Your task to perform on an android device: Search for flights from NYC to Chicago Image 0: 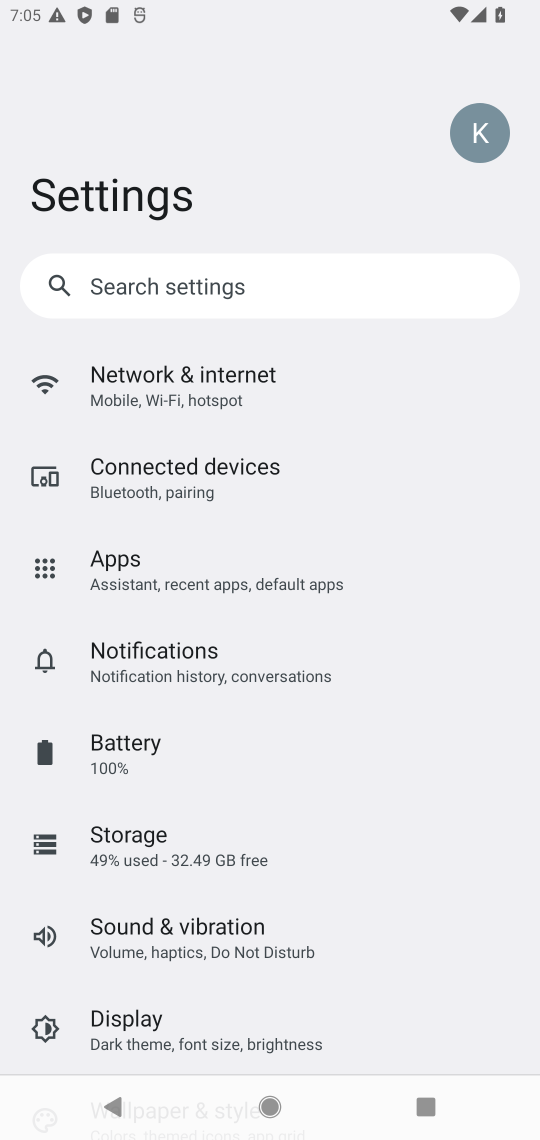
Step 0: press home button
Your task to perform on an android device: Search for flights from NYC to Chicago Image 1: 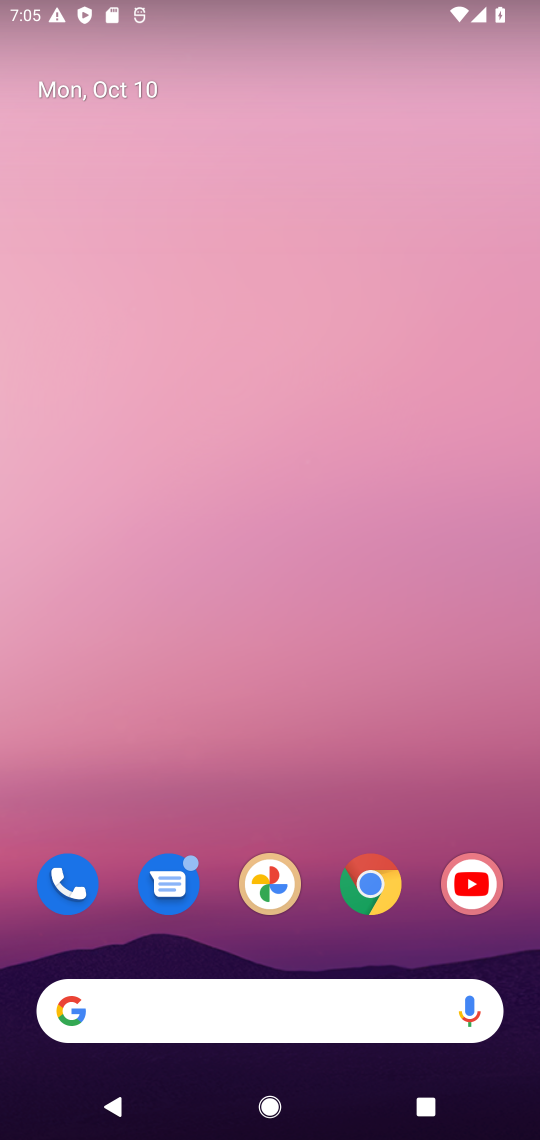
Step 1: click (188, 1001)
Your task to perform on an android device: Search for flights from NYC to Chicago Image 2: 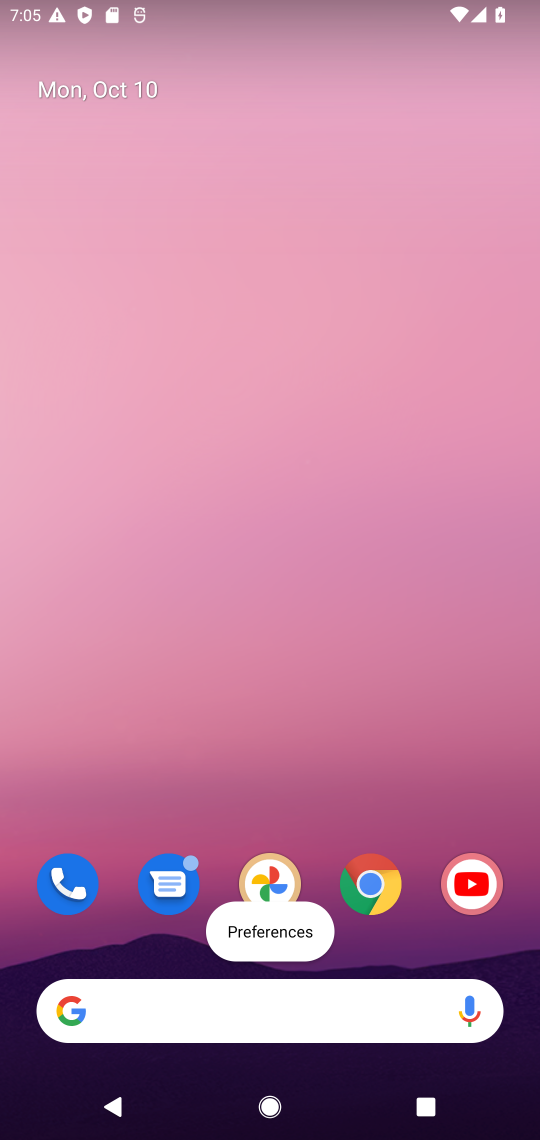
Step 2: click (357, 897)
Your task to perform on an android device: Search for flights from NYC to Chicago Image 3: 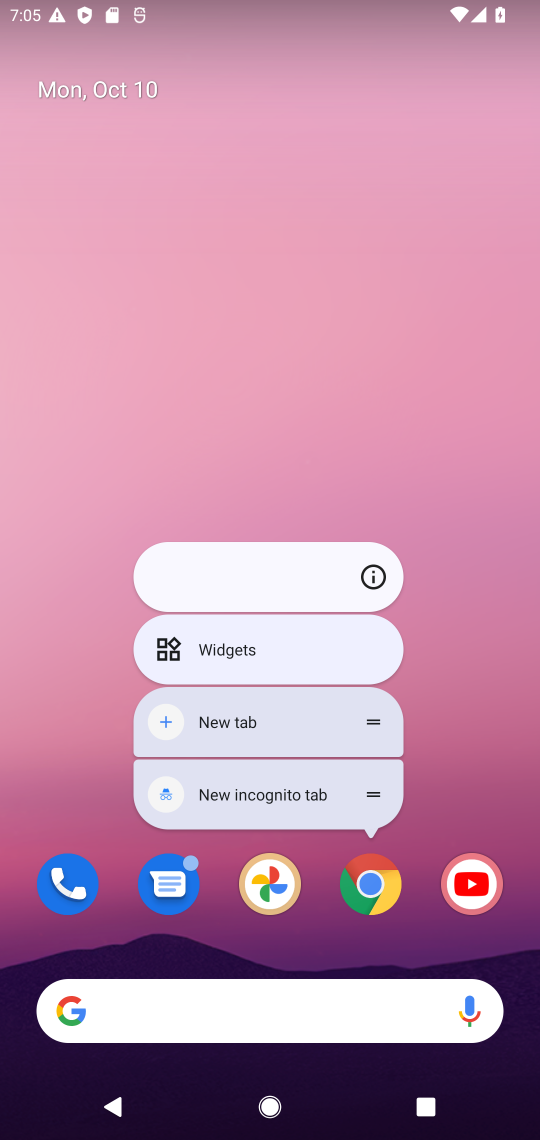
Step 3: click (390, 1021)
Your task to perform on an android device: Search for flights from NYC to Chicago Image 4: 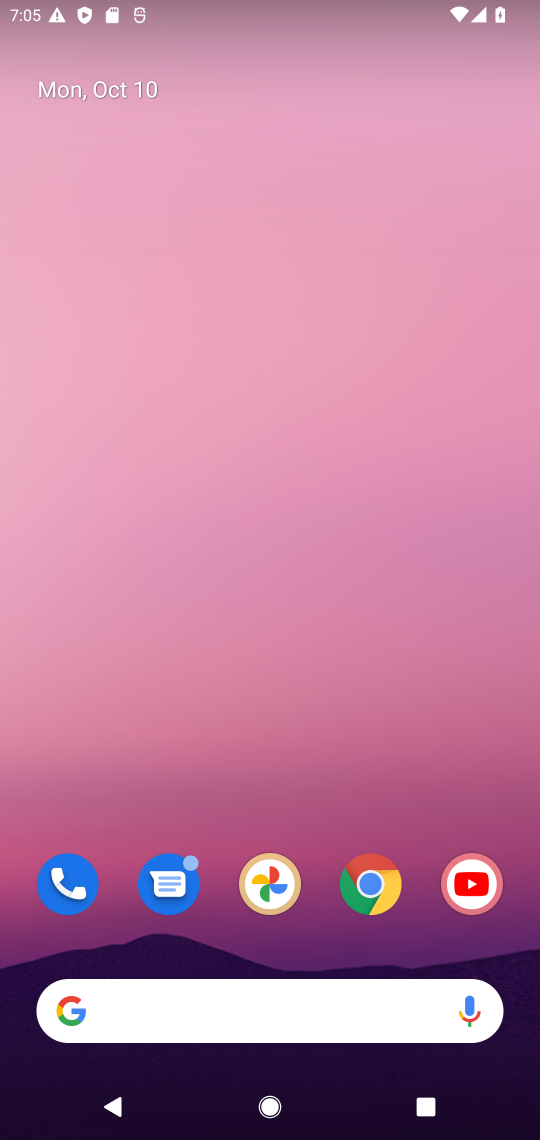
Step 4: click (372, 1005)
Your task to perform on an android device: Search for flights from NYC to Chicago Image 5: 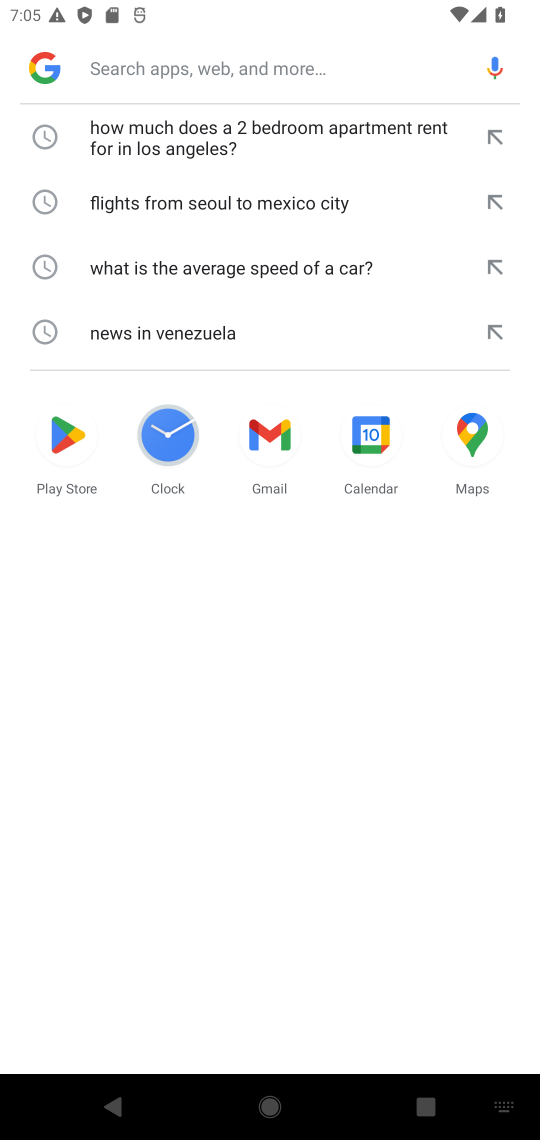
Step 5: type " flights from NYC to Chicago"
Your task to perform on an android device: Search for flights from NYC to Chicago Image 6: 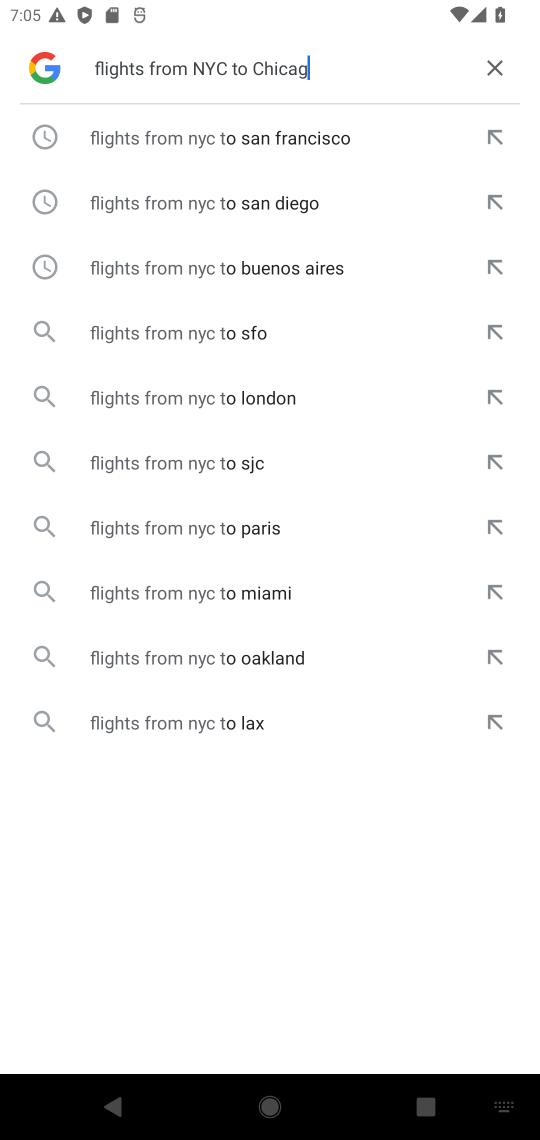
Step 6: type ""
Your task to perform on an android device: Search for flights from NYC to Chicago Image 7: 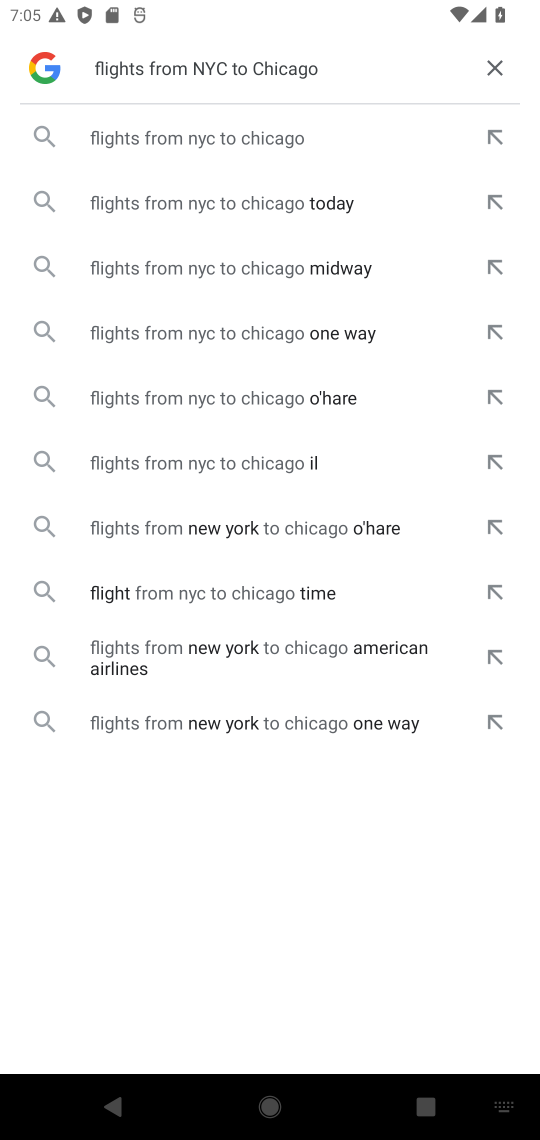
Step 7: press enter
Your task to perform on an android device: Search for flights from NYC to Chicago Image 8: 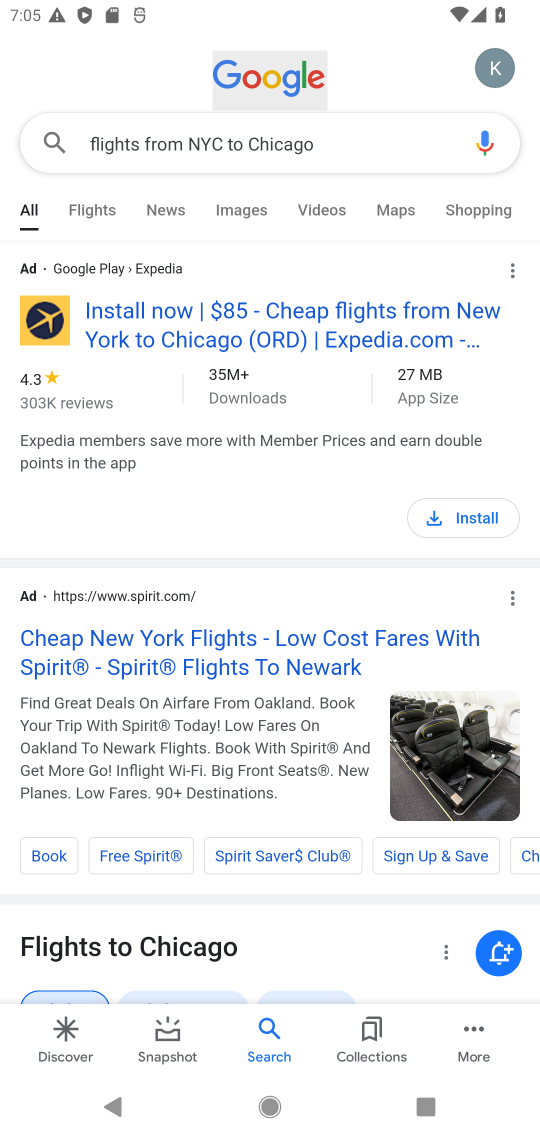
Step 8: drag from (148, 825) to (148, 312)
Your task to perform on an android device: Search for flights from NYC to Chicago Image 9: 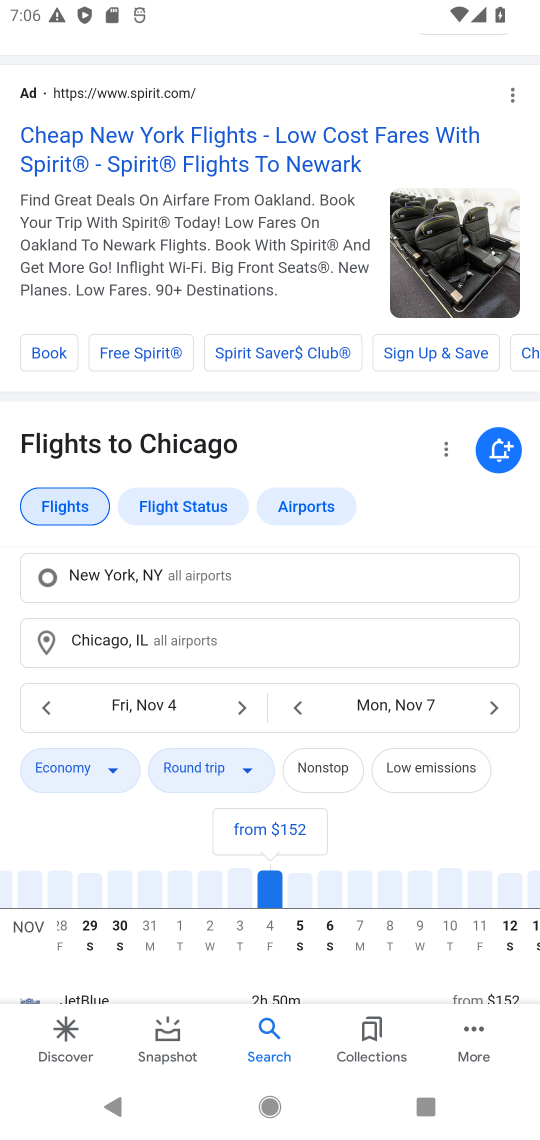
Step 9: click (179, 441)
Your task to perform on an android device: Search for flights from NYC to Chicago Image 10: 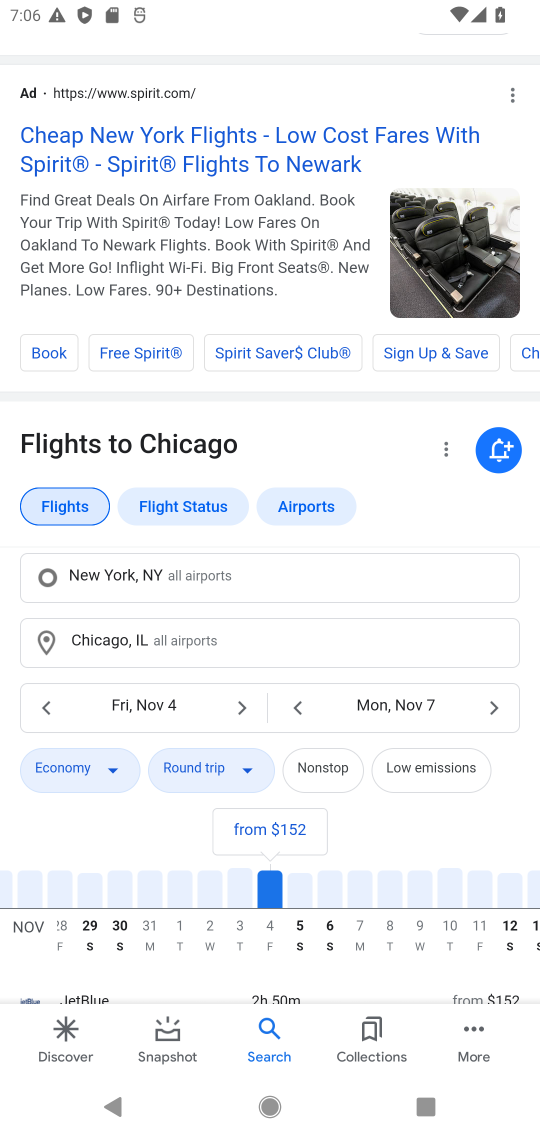
Step 10: click (338, 374)
Your task to perform on an android device: Search for flights from NYC to Chicago Image 11: 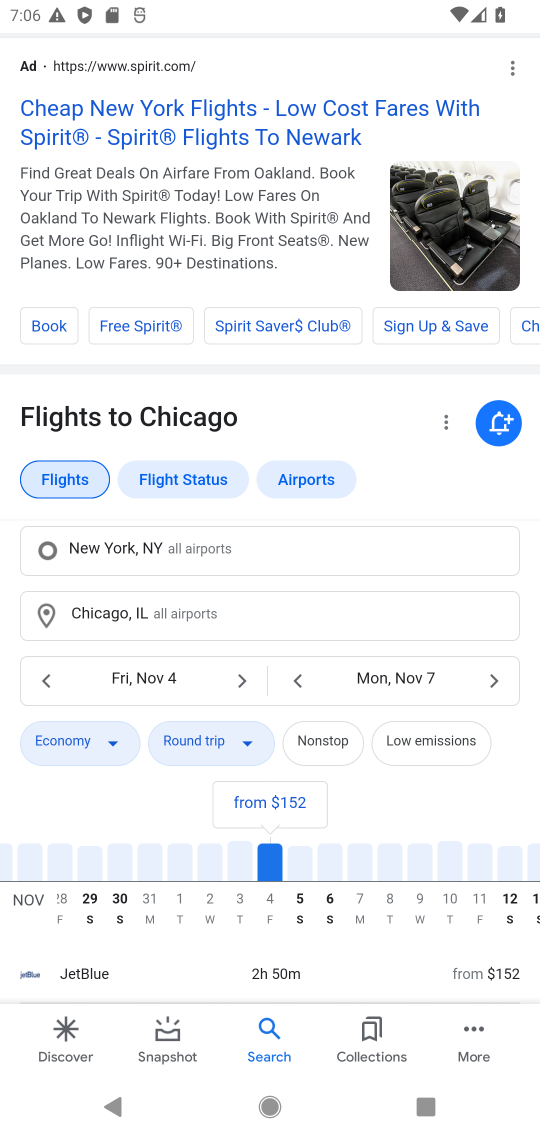
Step 11: drag from (401, 833) to (384, 313)
Your task to perform on an android device: Search for flights from NYC to Chicago Image 12: 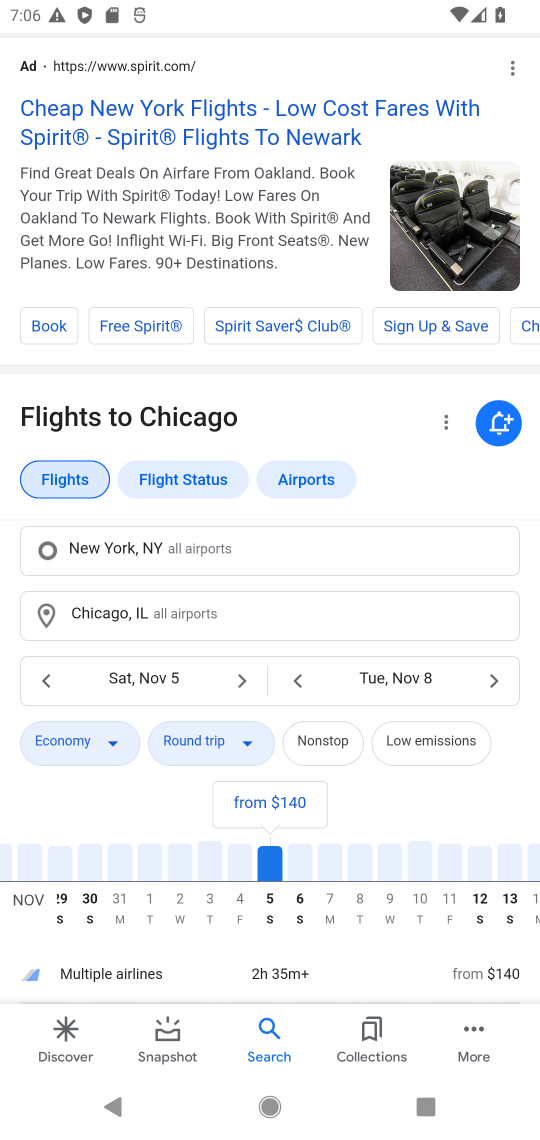
Step 12: drag from (430, 930) to (411, 313)
Your task to perform on an android device: Search for flights from NYC to Chicago Image 13: 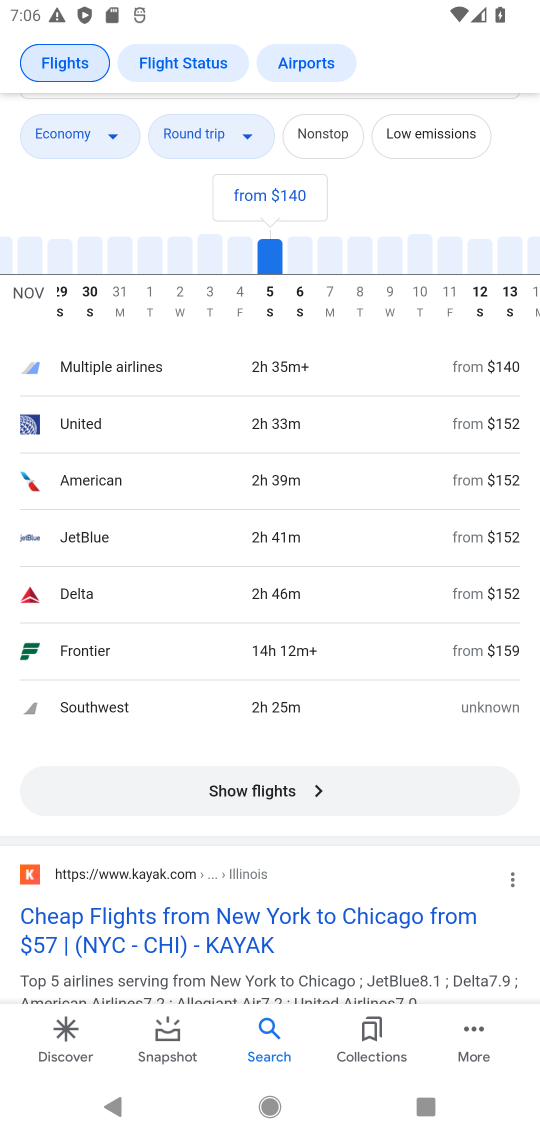
Step 13: drag from (395, 814) to (402, 593)
Your task to perform on an android device: Search for flights from NYC to Chicago Image 14: 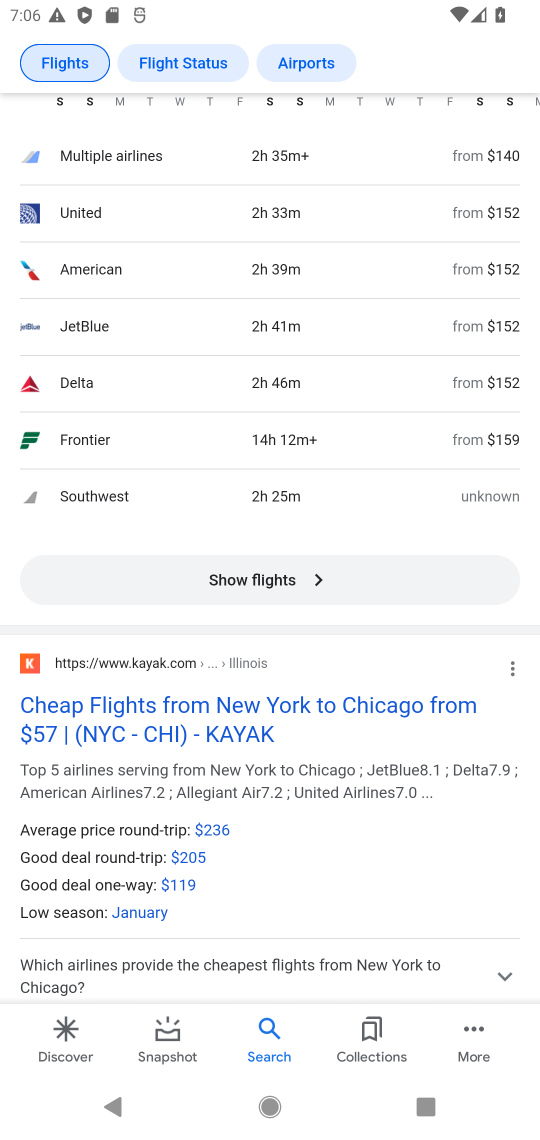
Step 14: click (281, 589)
Your task to perform on an android device: Search for flights from NYC to Chicago Image 15: 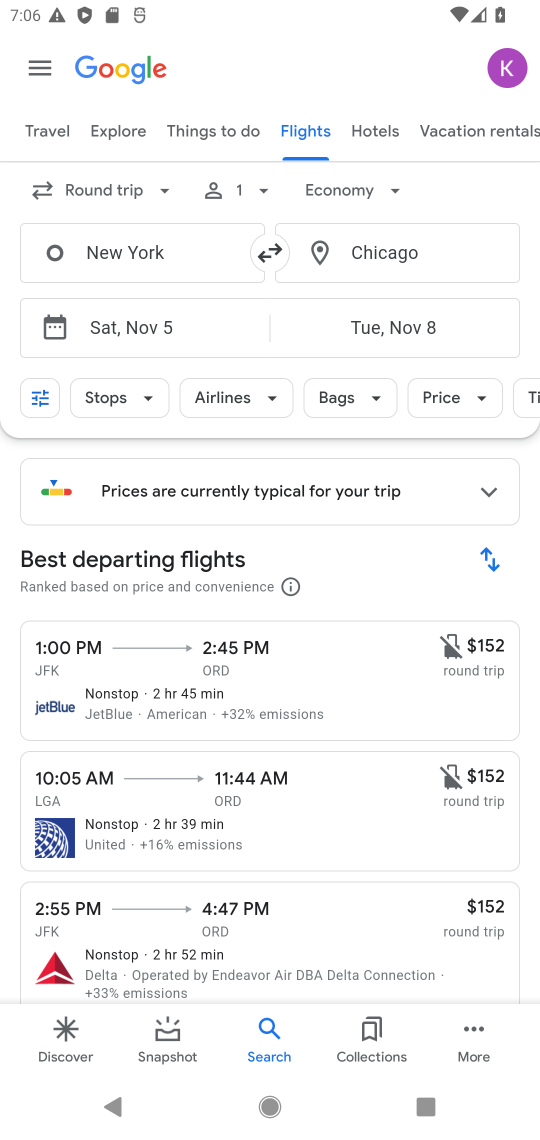
Step 15: drag from (293, 865) to (258, 340)
Your task to perform on an android device: Search for flights from NYC to Chicago Image 16: 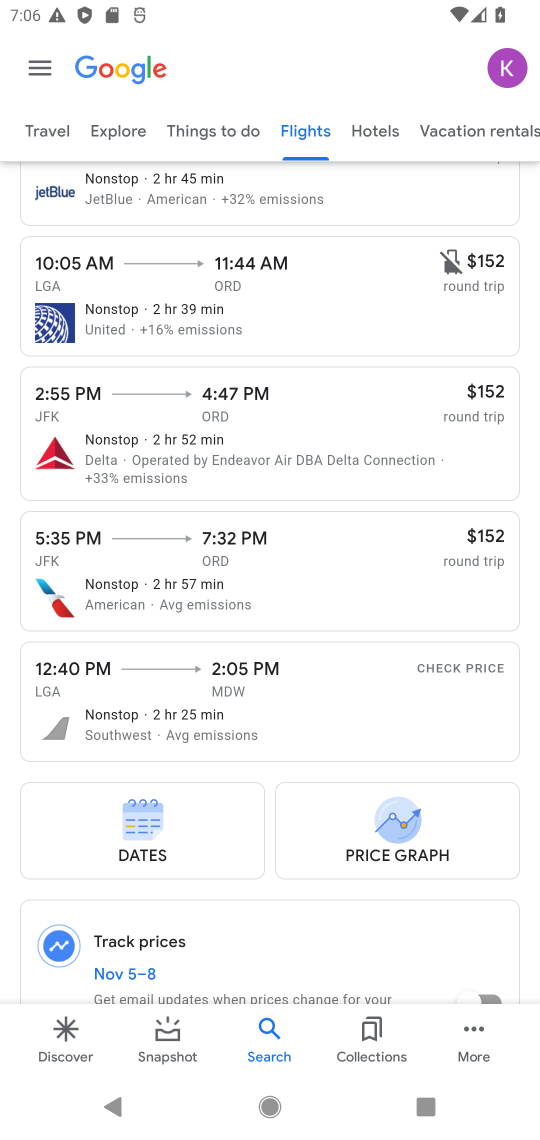
Step 16: drag from (314, 823) to (301, 363)
Your task to perform on an android device: Search for flights from NYC to Chicago Image 17: 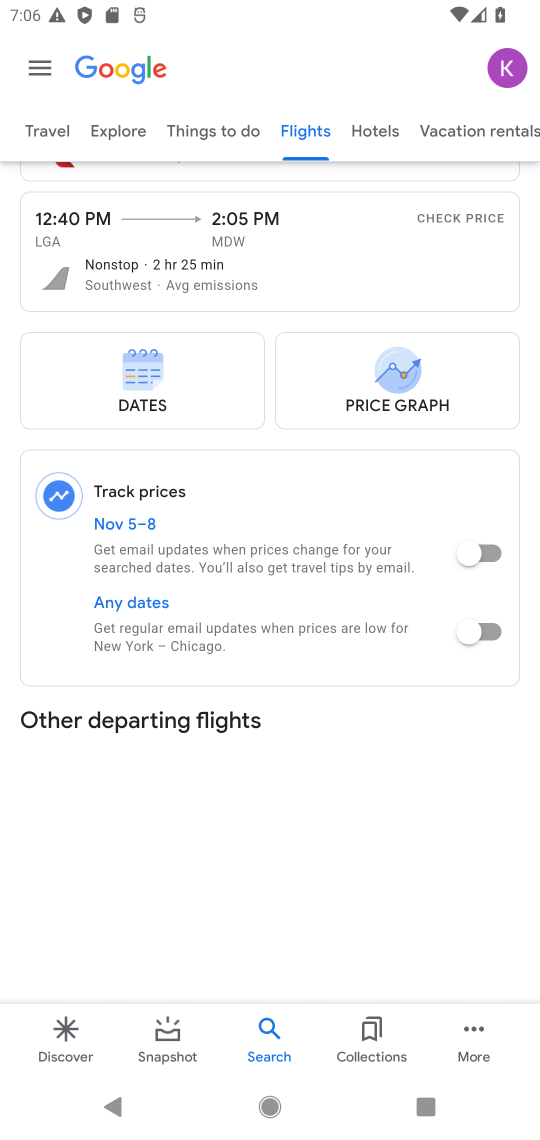
Step 17: drag from (286, 803) to (307, 355)
Your task to perform on an android device: Search for flights from NYC to Chicago Image 18: 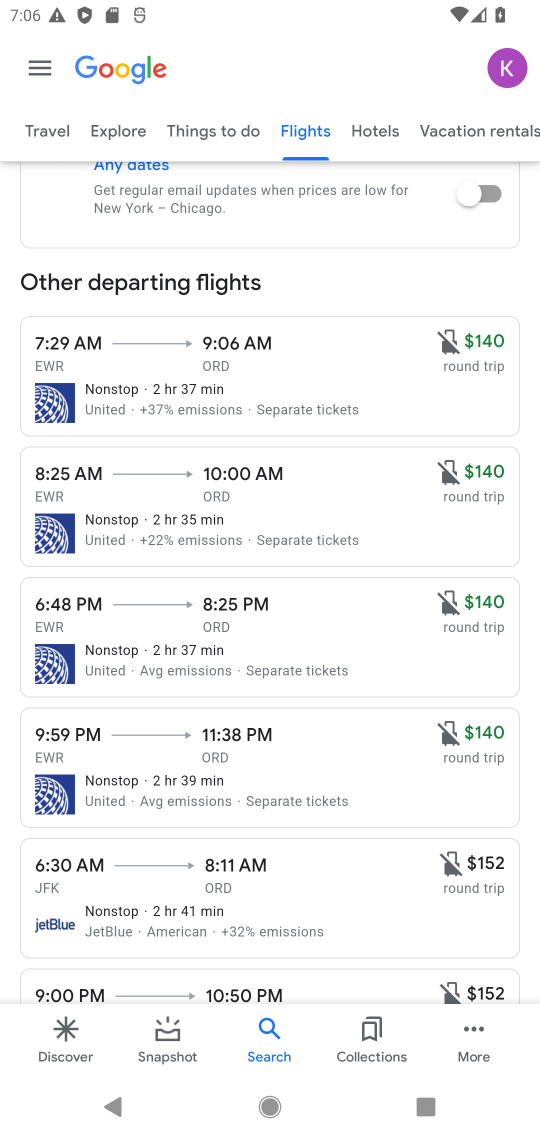
Step 18: drag from (354, 522) to (394, 336)
Your task to perform on an android device: Search for flights from NYC to Chicago Image 19: 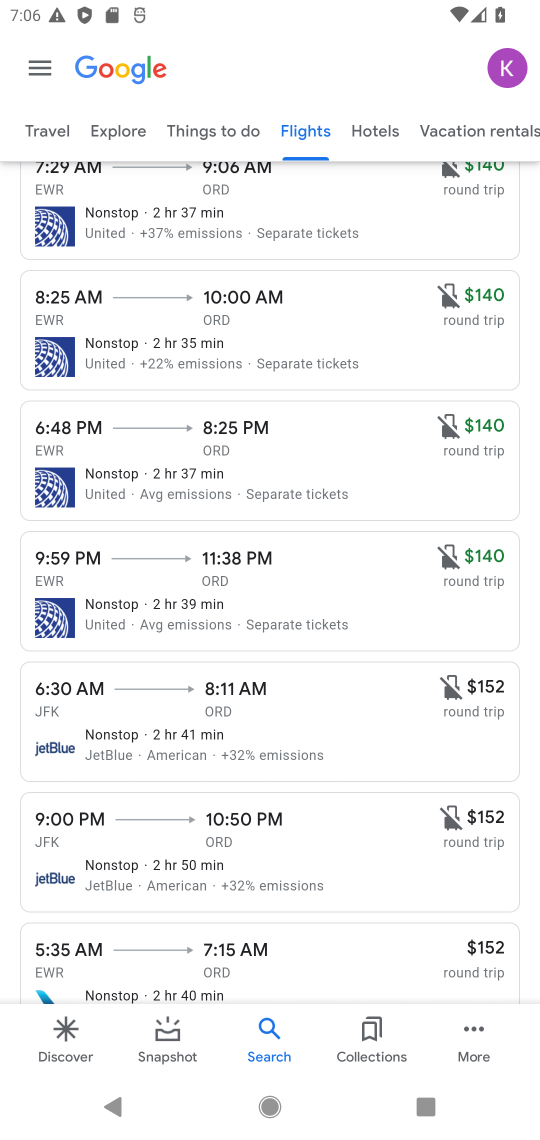
Step 19: drag from (326, 737) to (388, 327)
Your task to perform on an android device: Search for flights from NYC to Chicago Image 20: 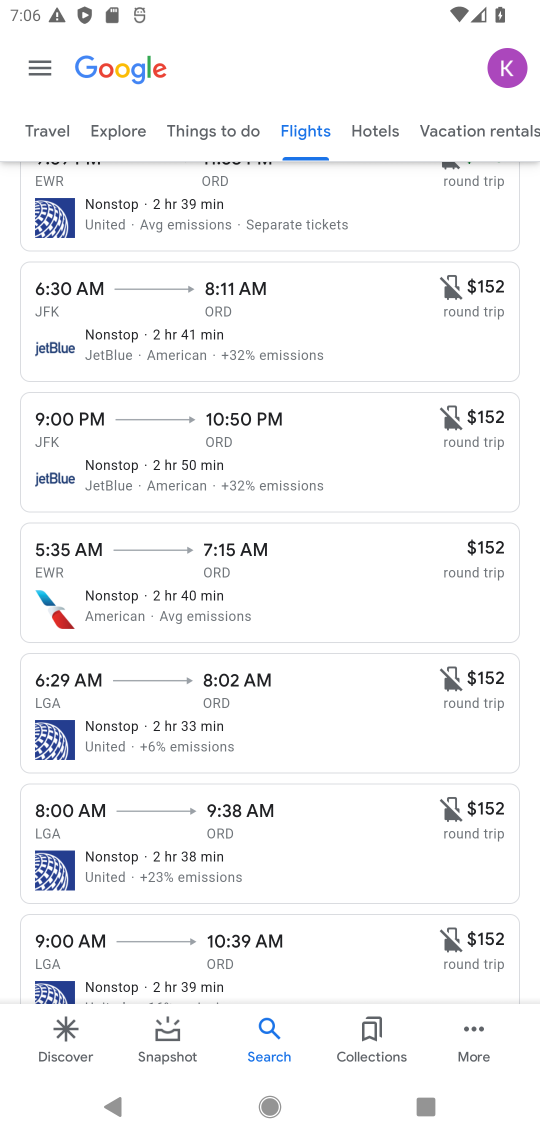
Step 20: drag from (349, 852) to (379, 293)
Your task to perform on an android device: Search for flights from NYC to Chicago Image 21: 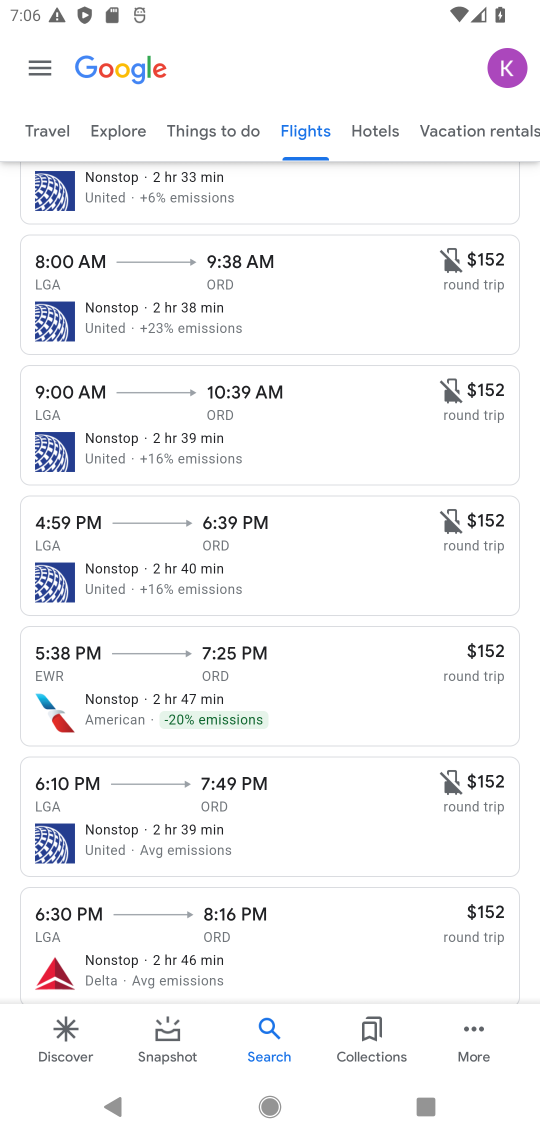
Step 21: drag from (199, 501) to (222, 298)
Your task to perform on an android device: Search for flights from NYC to Chicago Image 22: 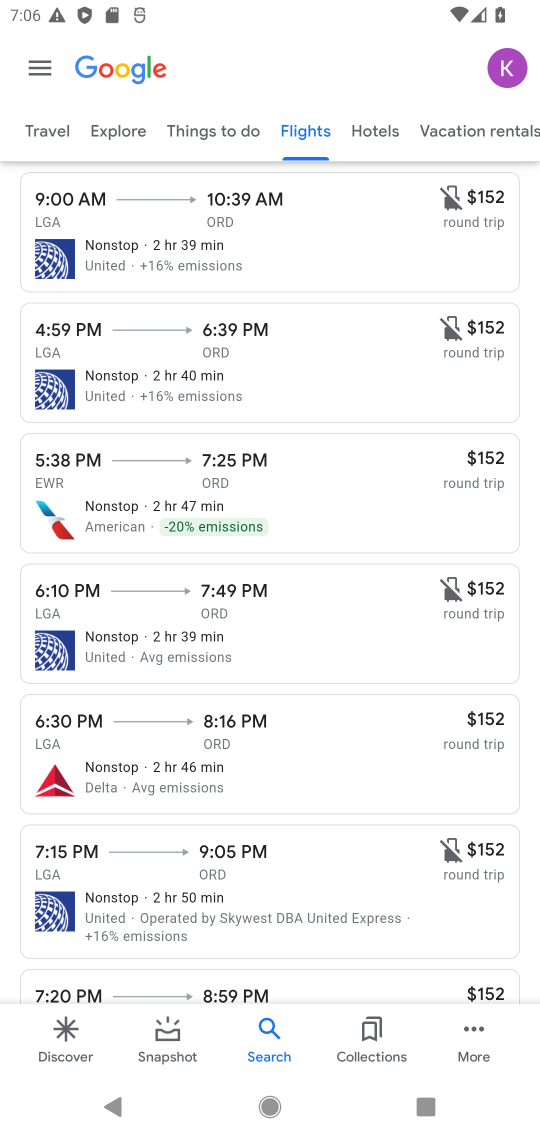
Step 22: drag from (241, 724) to (230, 433)
Your task to perform on an android device: Search for flights from NYC to Chicago Image 23: 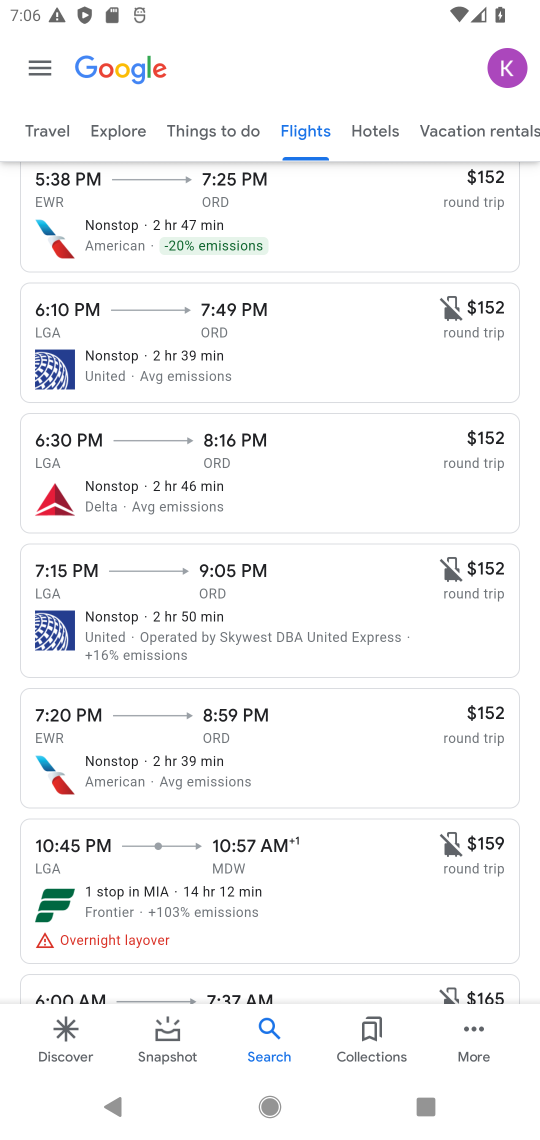
Step 23: drag from (295, 641) to (306, 345)
Your task to perform on an android device: Search for flights from NYC to Chicago Image 24: 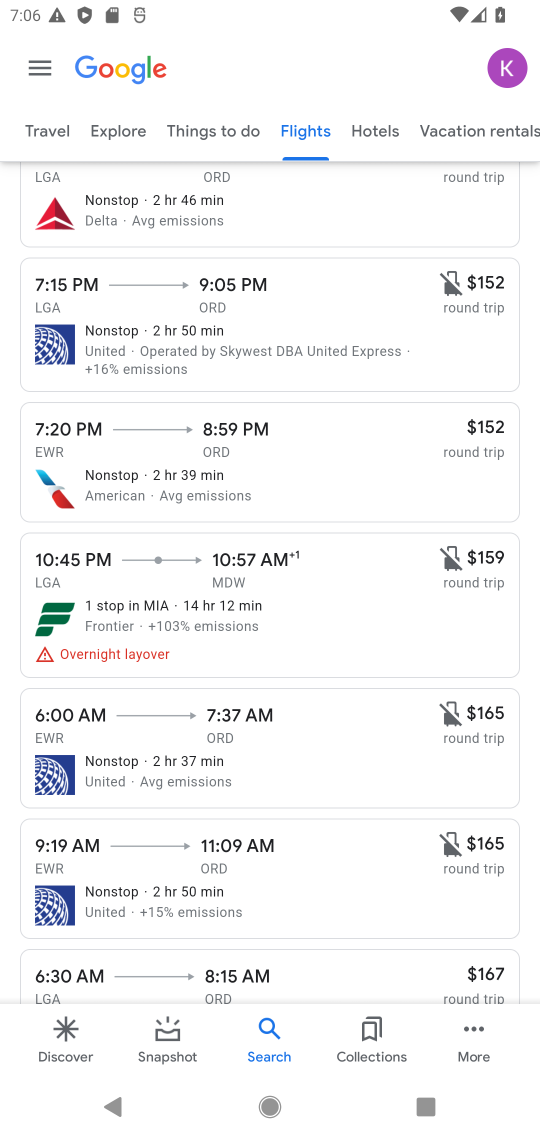
Step 24: drag from (395, 775) to (356, 385)
Your task to perform on an android device: Search for flights from NYC to Chicago Image 25: 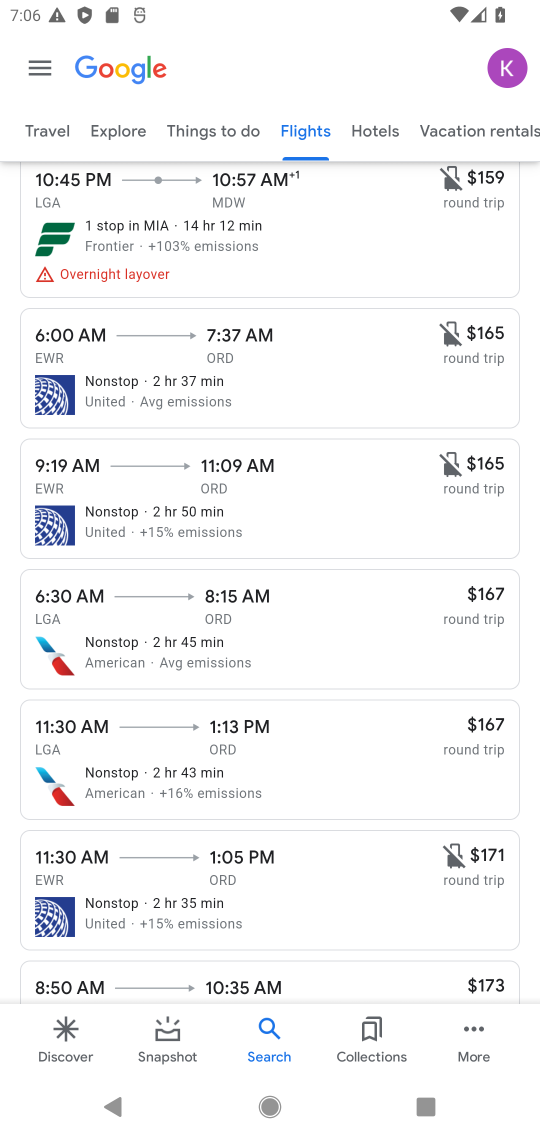
Step 25: drag from (285, 623) to (287, 279)
Your task to perform on an android device: Search for flights from NYC to Chicago Image 26: 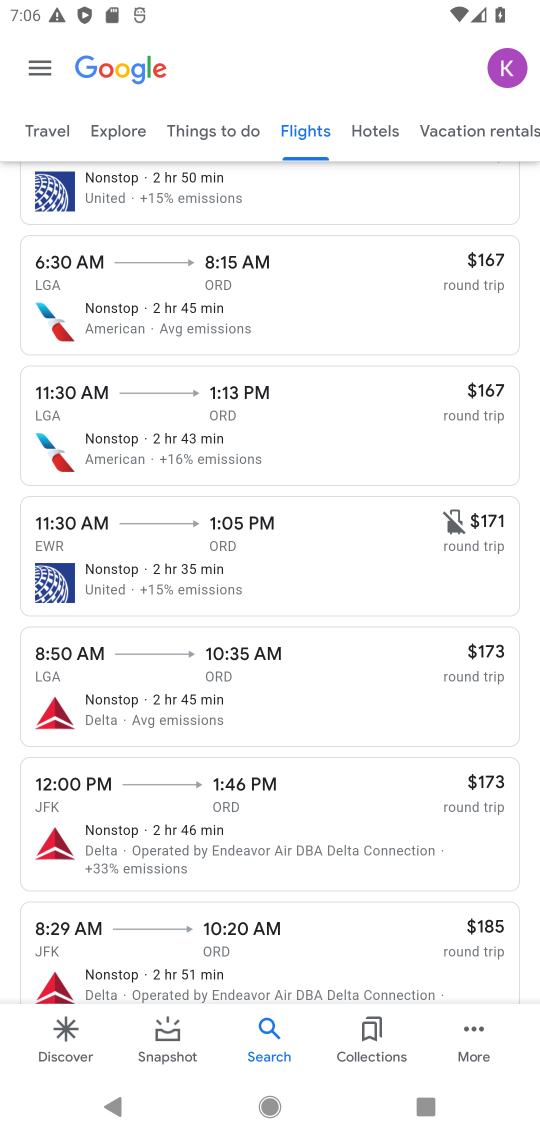
Step 26: drag from (299, 644) to (317, 307)
Your task to perform on an android device: Search for flights from NYC to Chicago Image 27: 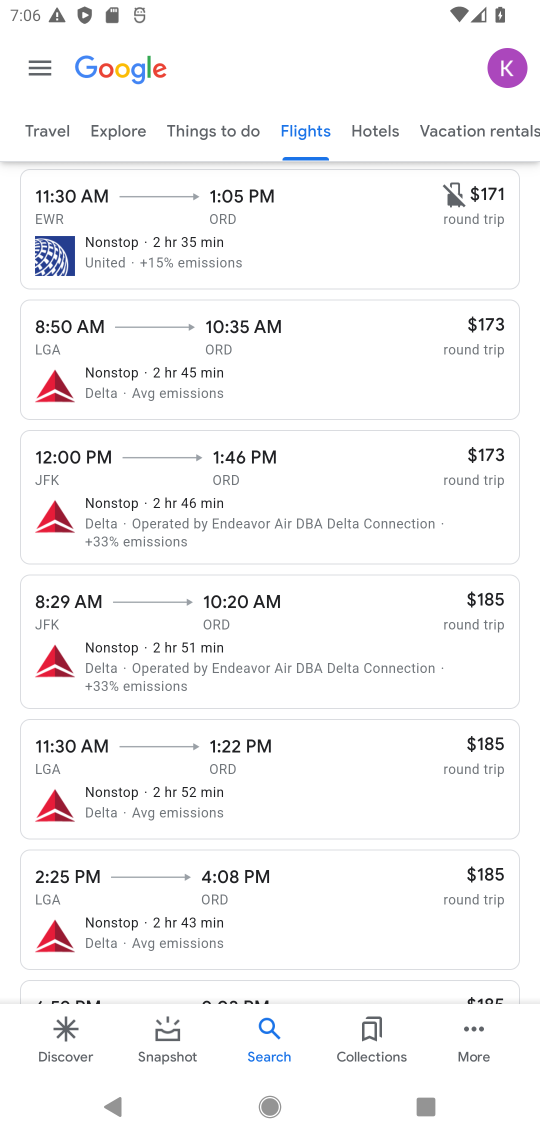
Step 27: drag from (351, 531) to (357, 353)
Your task to perform on an android device: Search for flights from NYC to Chicago Image 28: 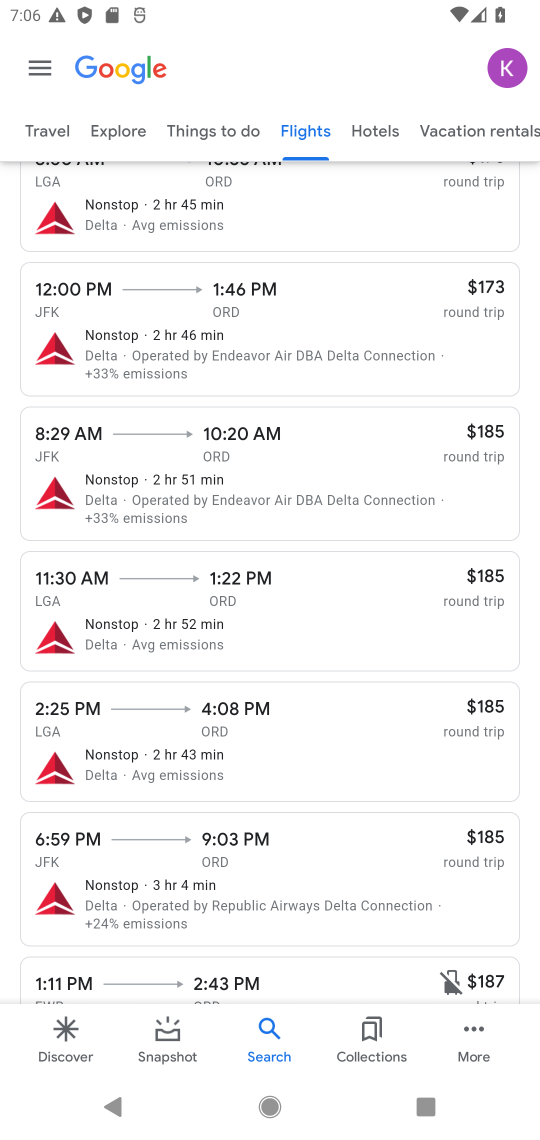
Step 28: drag from (382, 836) to (342, 337)
Your task to perform on an android device: Search for flights from NYC to Chicago Image 29: 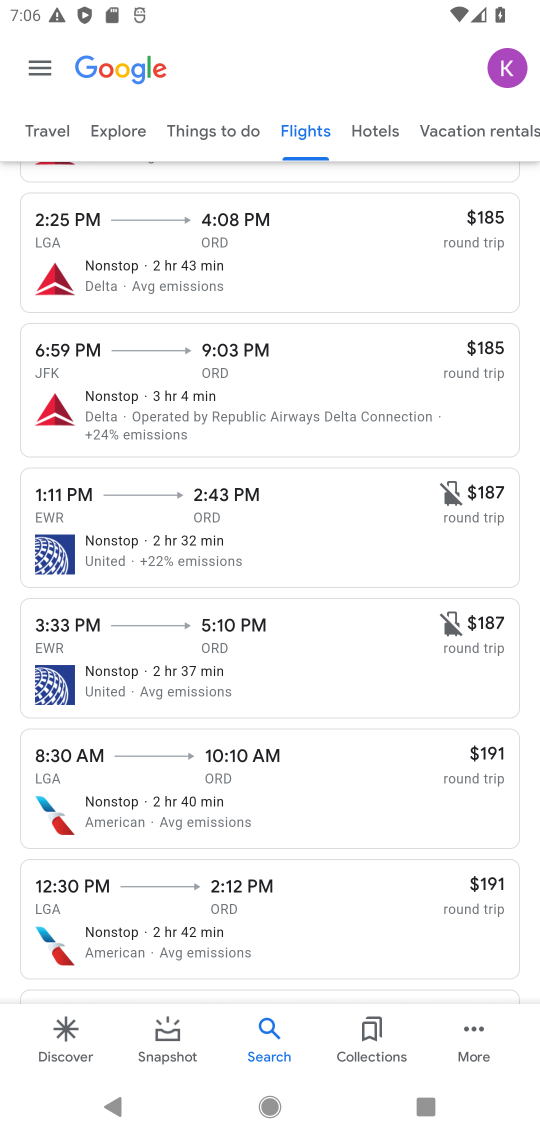
Step 29: drag from (363, 731) to (361, 363)
Your task to perform on an android device: Search for flights from NYC to Chicago Image 30: 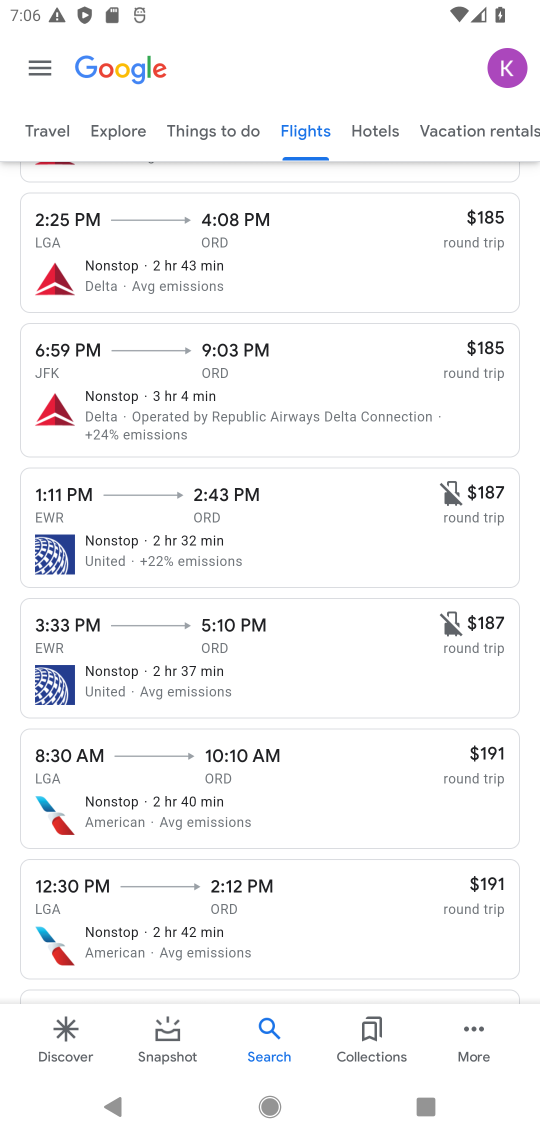
Step 30: drag from (396, 821) to (375, 418)
Your task to perform on an android device: Search for flights from NYC to Chicago Image 31: 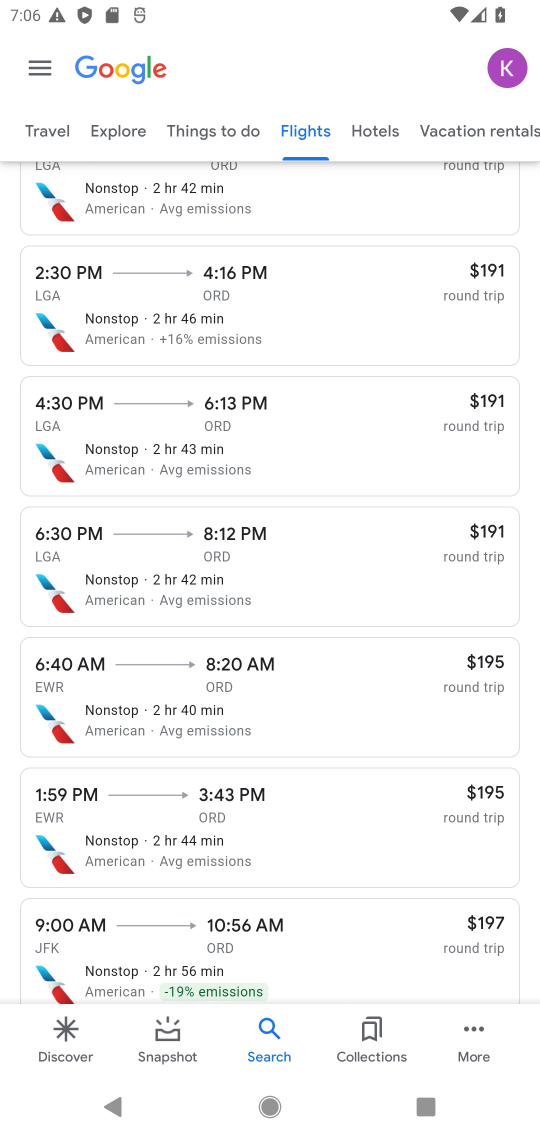
Step 31: drag from (437, 749) to (458, 434)
Your task to perform on an android device: Search for flights from NYC to Chicago Image 32: 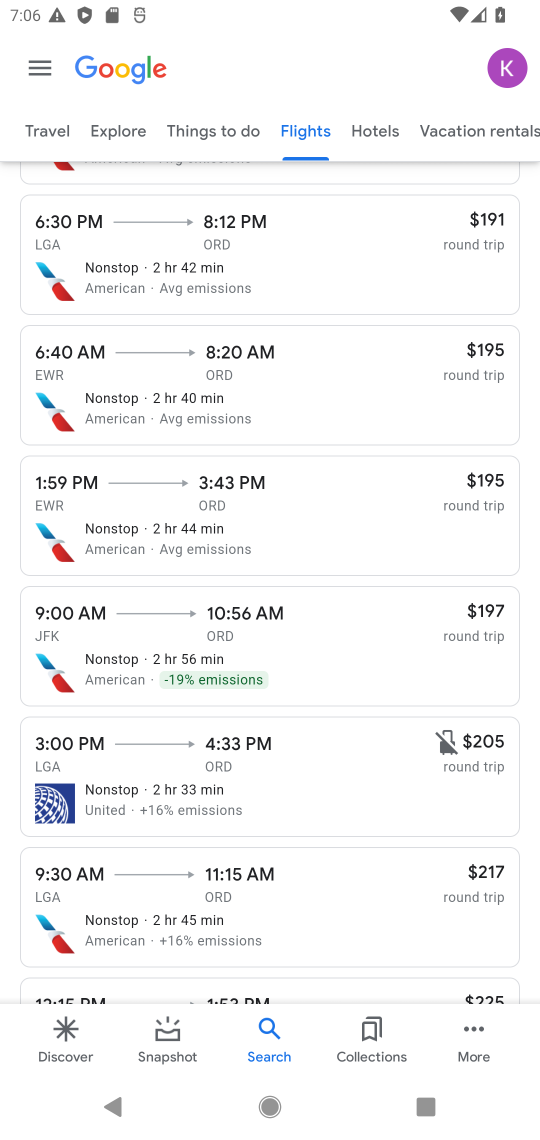
Step 32: drag from (468, 463) to (466, 395)
Your task to perform on an android device: Search for flights from NYC to Chicago Image 33: 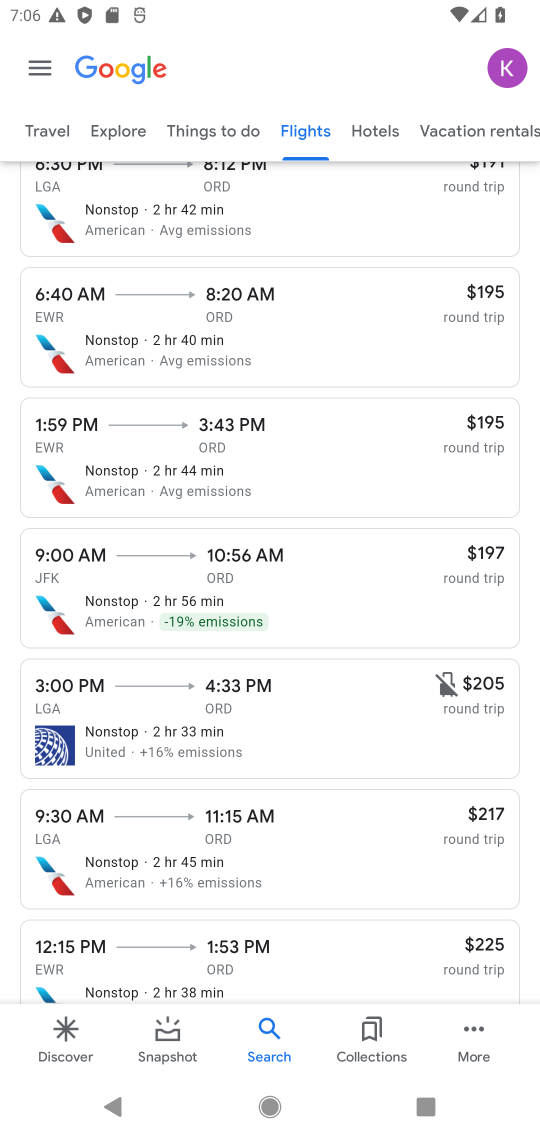
Step 33: drag from (361, 680) to (358, 551)
Your task to perform on an android device: Search for flights from NYC to Chicago Image 34: 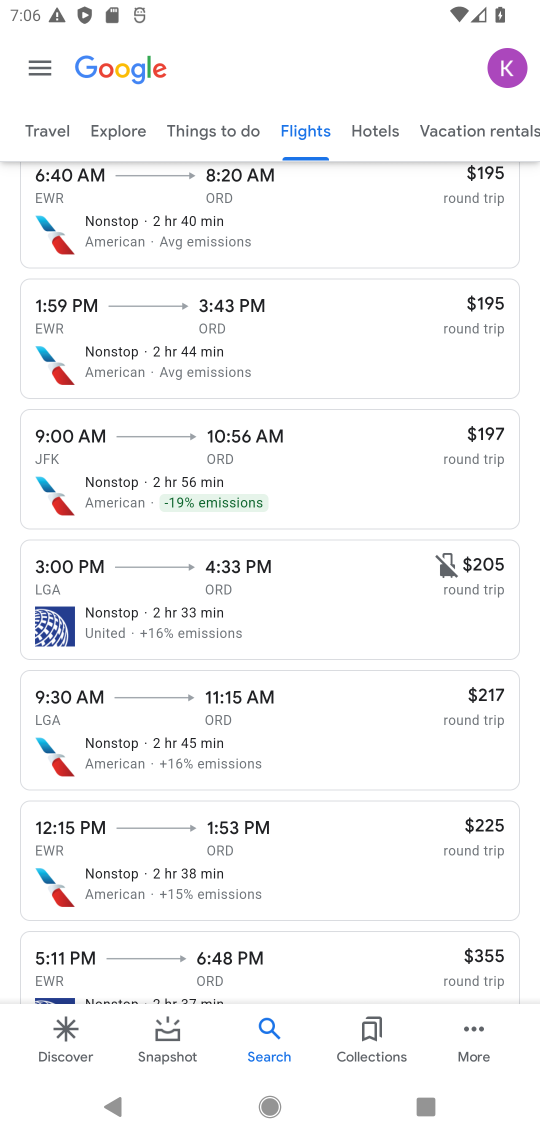
Step 34: drag from (387, 786) to (355, 442)
Your task to perform on an android device: Search for flights from NYC to Chicago Image 35: 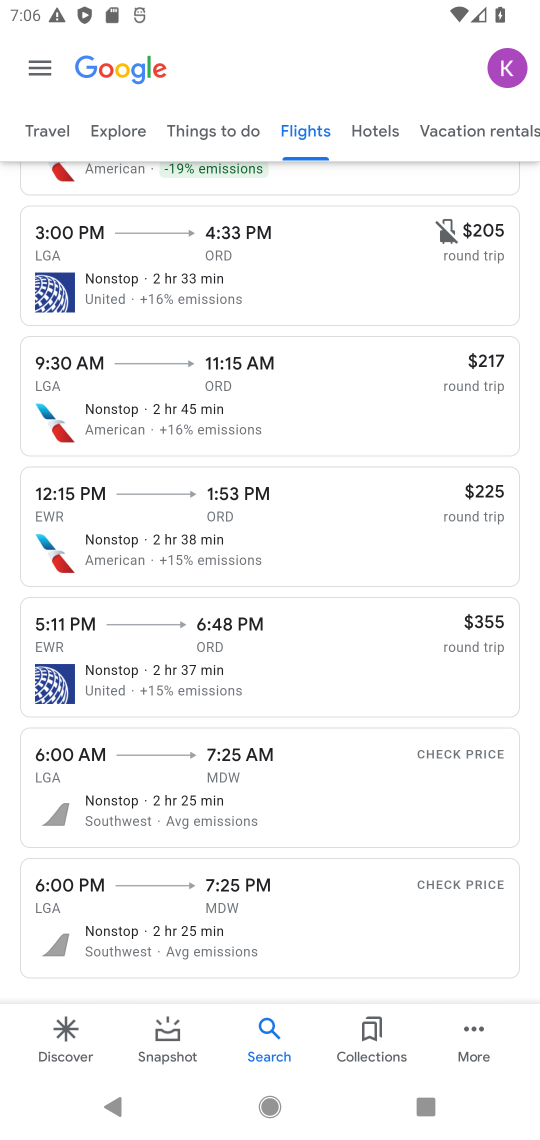
Step 35: drag from (380, 798) to (347, 436)
Your task to perform on an android device: Search for flights from NYC to Chicago Image 36: 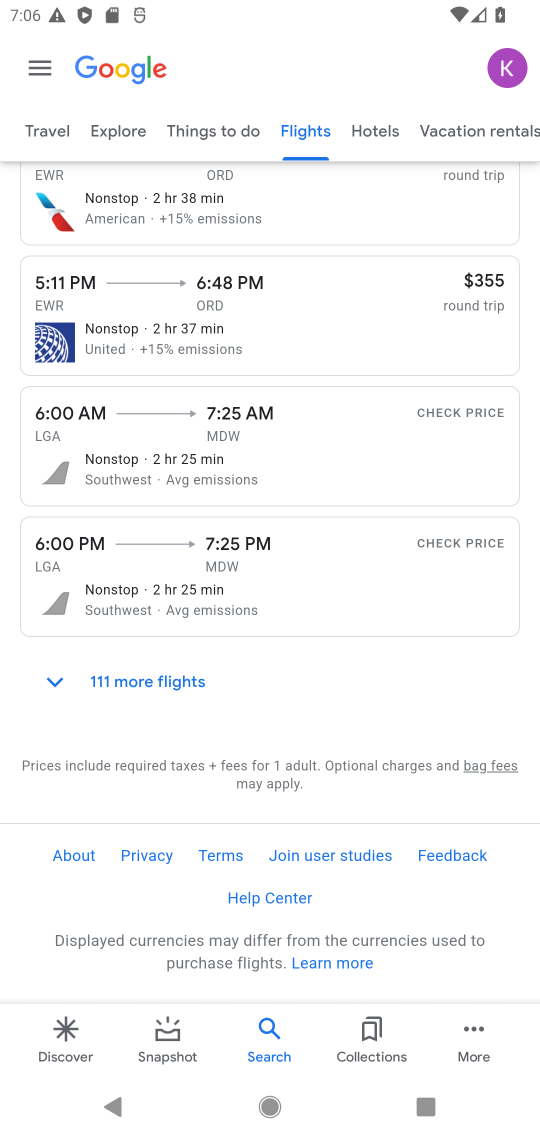
Step 36: drag from (407, 674) to (402, 364)
Your task to perform on an android device: Search for flights from NYC to Chicago Image 37: 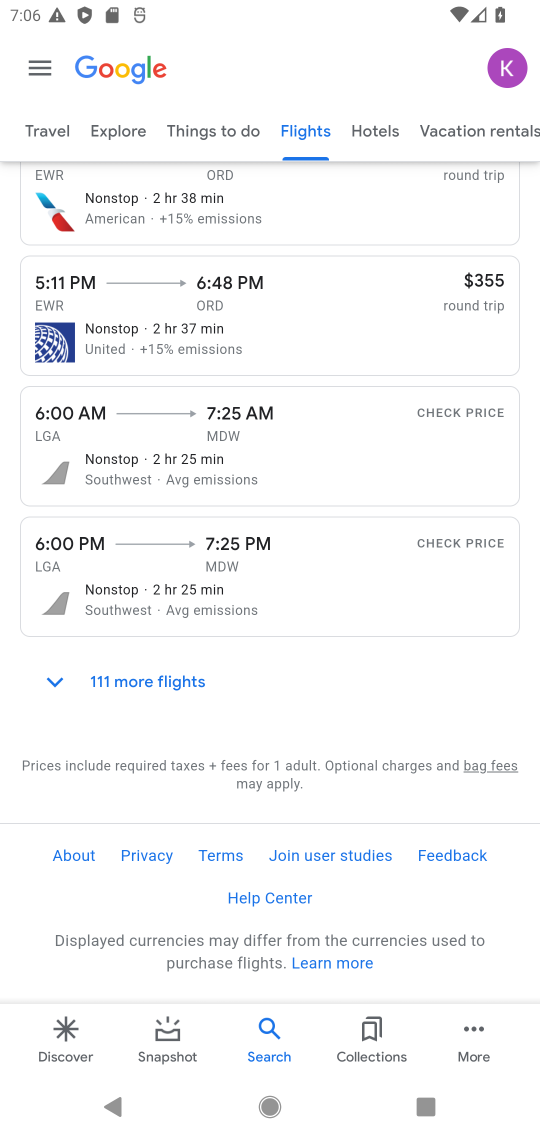
Step 37: drag from (290, 355) to (318, 867)
Your task to perform on an android device: Search for flights from NYC to Chicago Image 38: 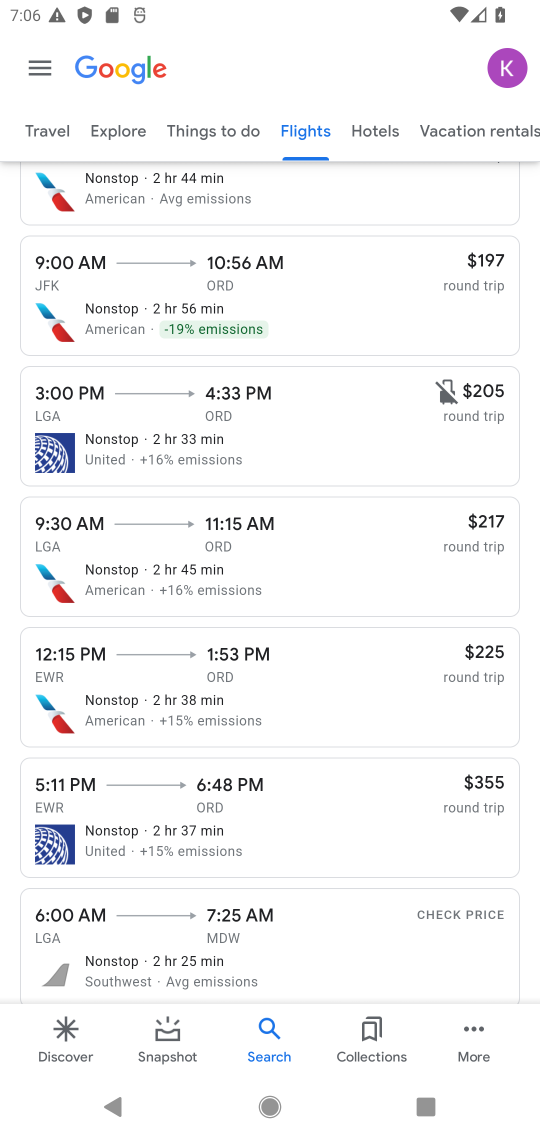
Step 38: drag from (333, 276) to (392, 789)
Your task to perform on an android device: Search for flights from NYC to Chicago Image 39: 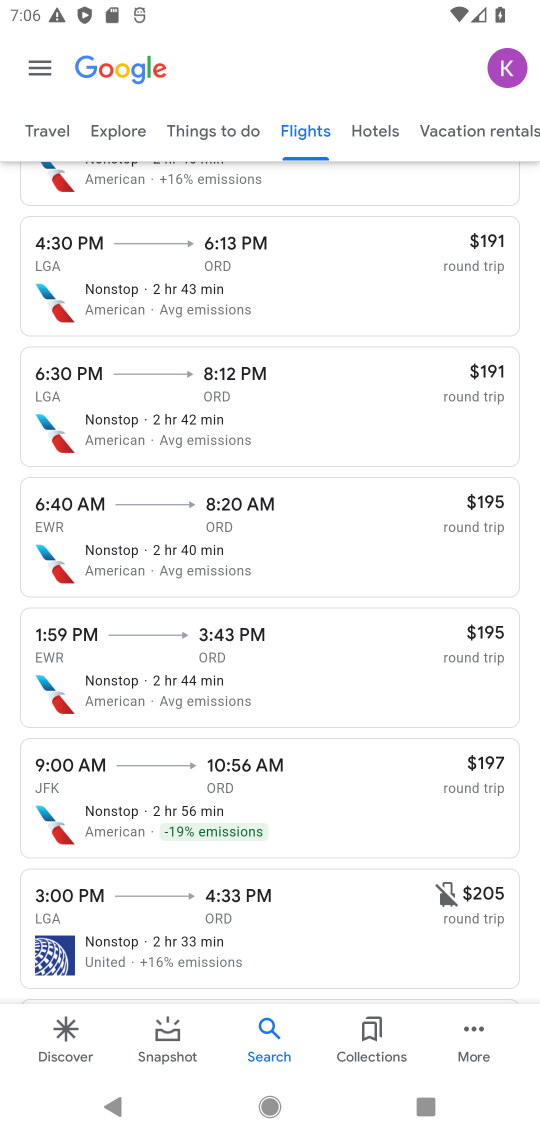
Step 39: drag from (290, 243) to (331, 939)
Your task to perform on an android device: Search for flights from NYC to Chicago Image 40: 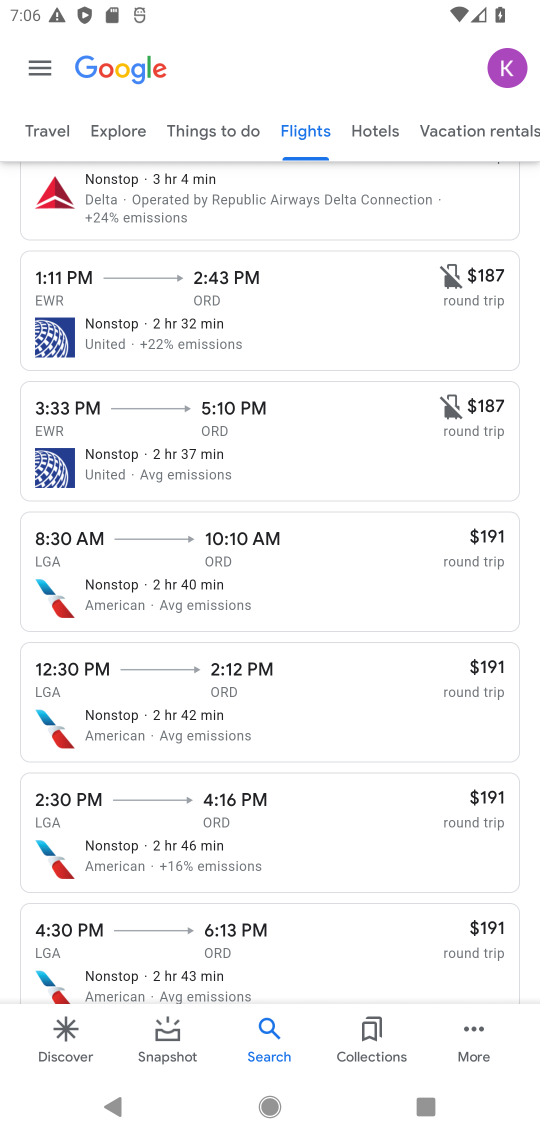
Step 40: drag from (317, 760) to (336, 930)
Your task to perform on an android device: Search for flights from NYC to Chicago Image 41: 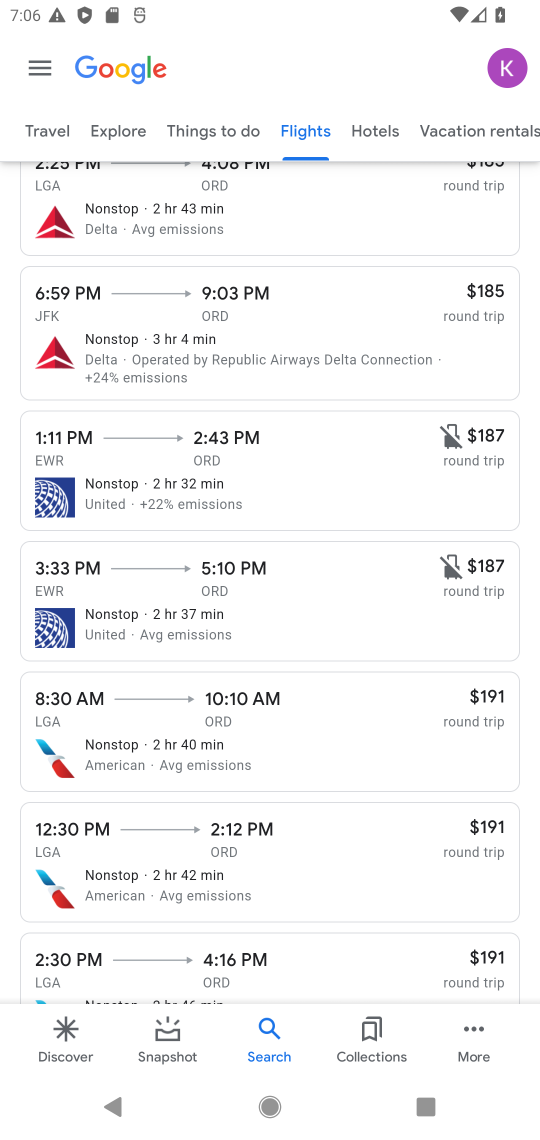
Step 41: drag from (358, 543) to (354, 933)
Your task to perform on an android device: Search for flights from NYC to Chicago Image 42: 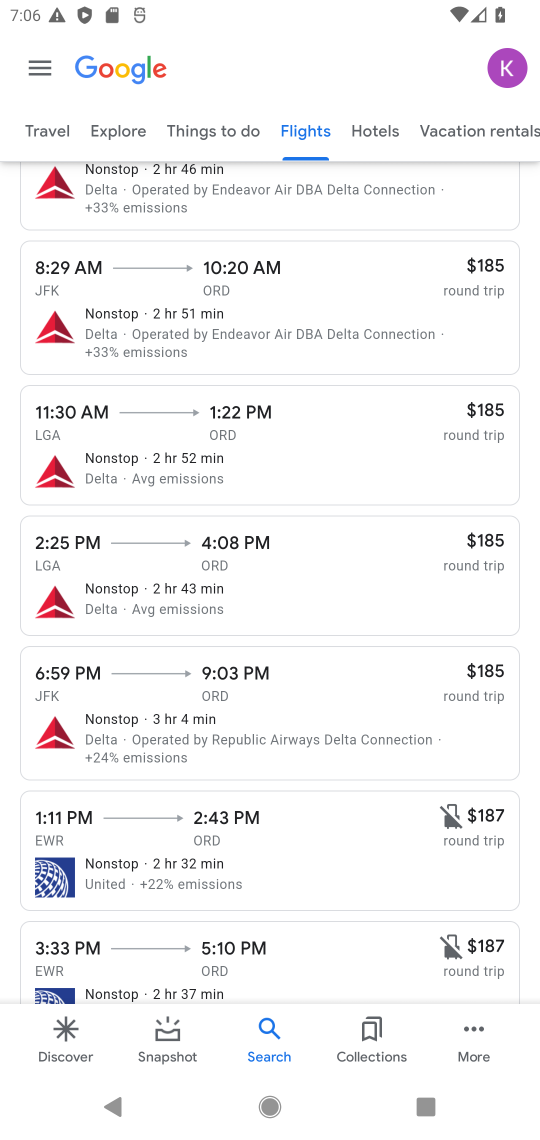
Step 42: drag from (327, 307) to (374, 946)
Your task to perform on an android device: Search for flights from NYC to Chicago Image 43: 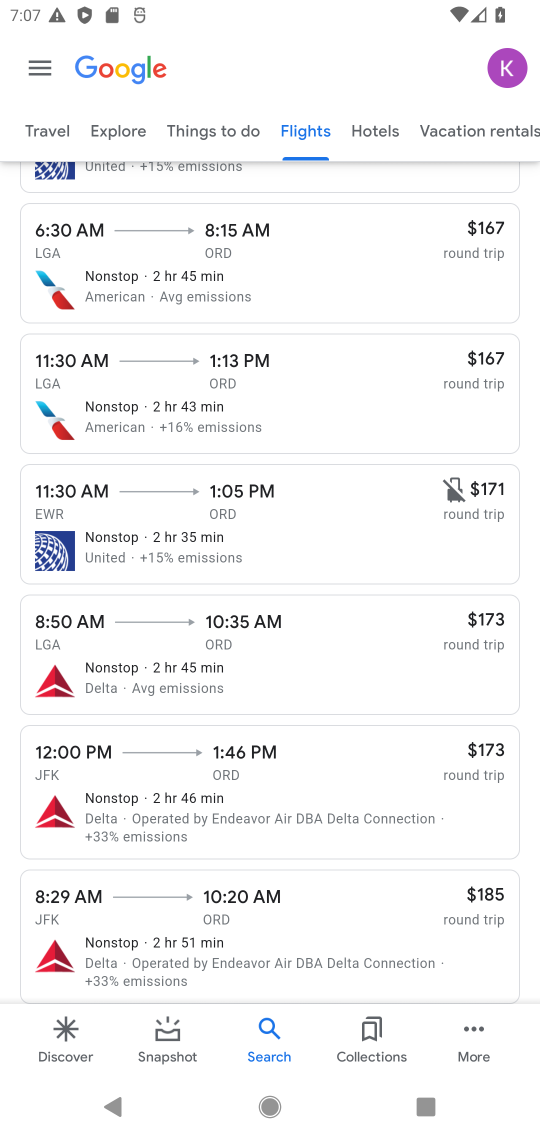
Step 43: drag from (432, 610) to (416, 1001)
Your task to perform on an android device: Search for flights from NYC to Chicago Image 44: 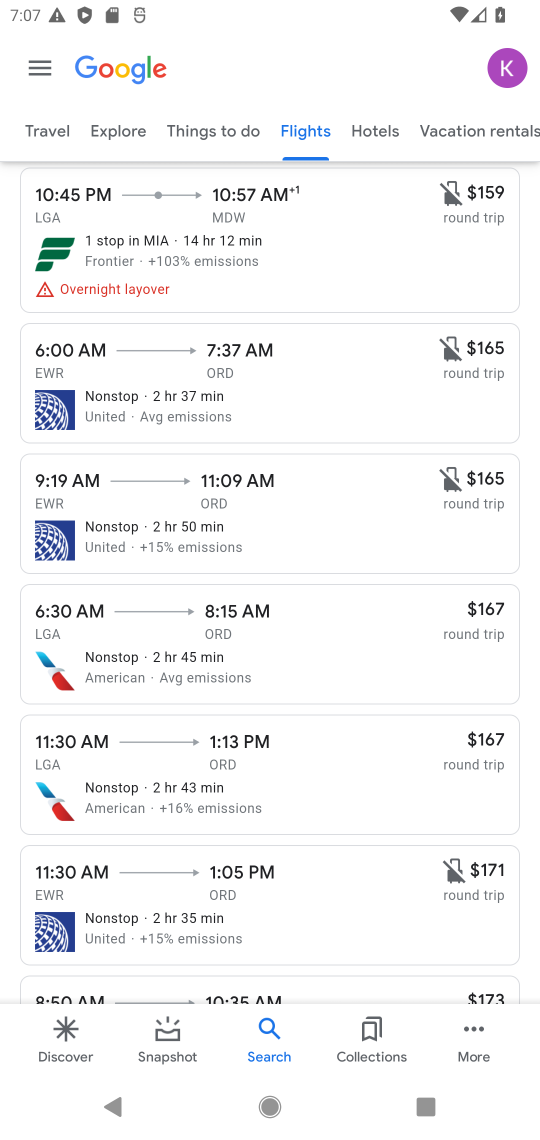
Step 44: drag from (335, 253) to (385, 912)
Your task to perform on an android device: Search for flights from NYC to Chicago Image 45: 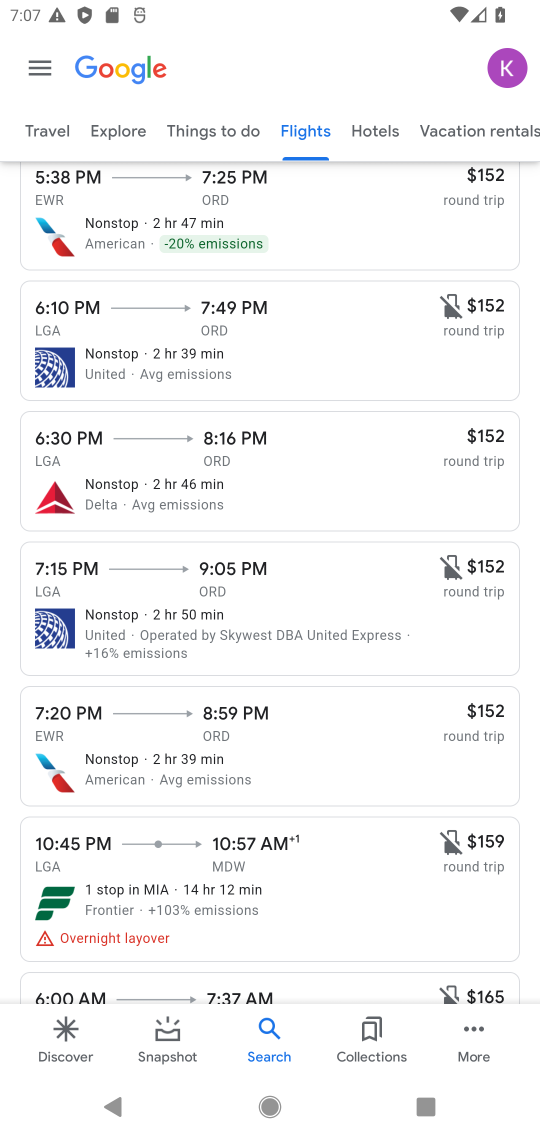
Step 45: drag from (344, 348) to (401, 890)
Your task to perform on an android device: Search for flights from NYC to Chicago Image 46: 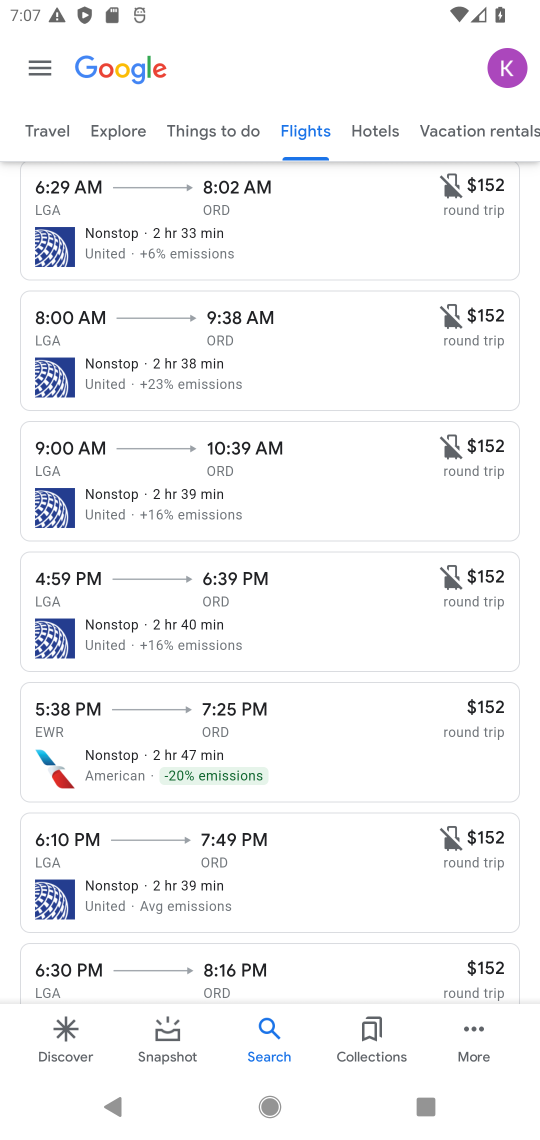
Step 46: drag from (335, 289) to (389, 845)
Your task to perform on an android device: Search for flights from NYC to Chicago Image 47: 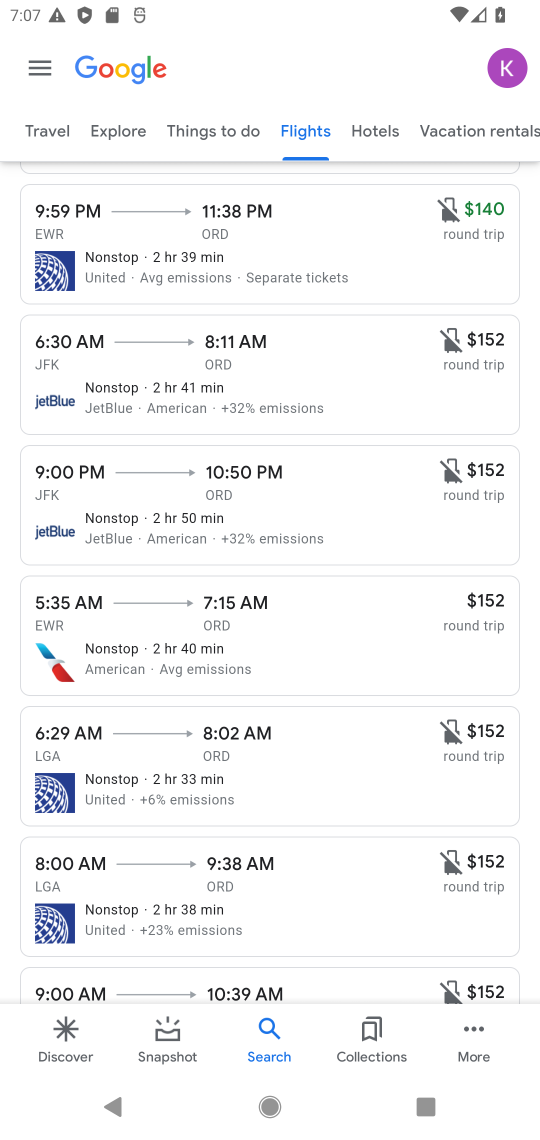
Step 47: drag from (336, 364) to (326, 853)
Your task to perform on an android device: Search for flights from NYC to Chicago Image 48: 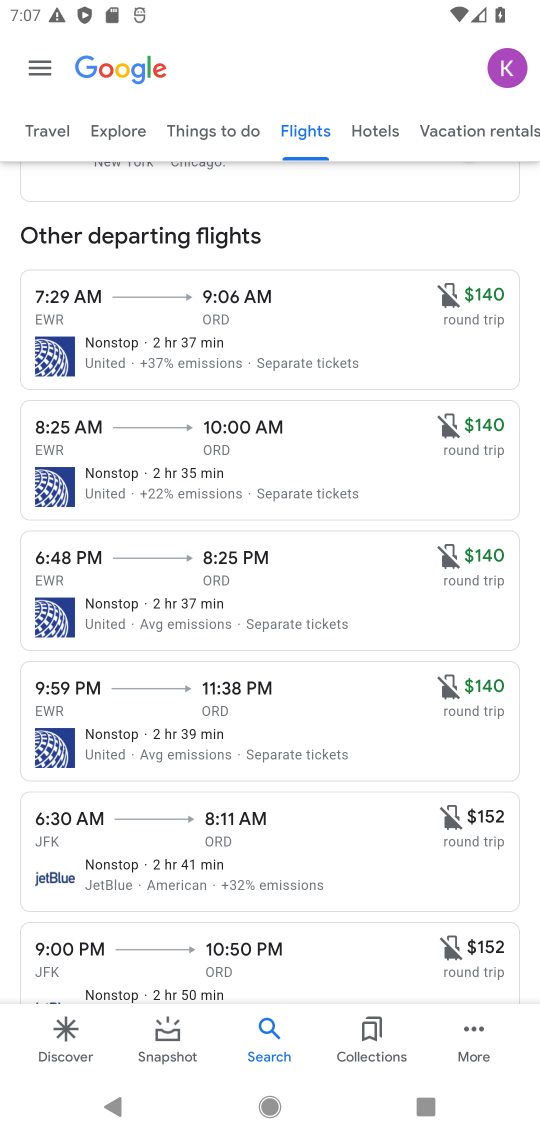
Step 48: drag from (299, 207) to (280, 803)
Your task to perform on an android device: Search for flights from NYC to Chicago Image 49: 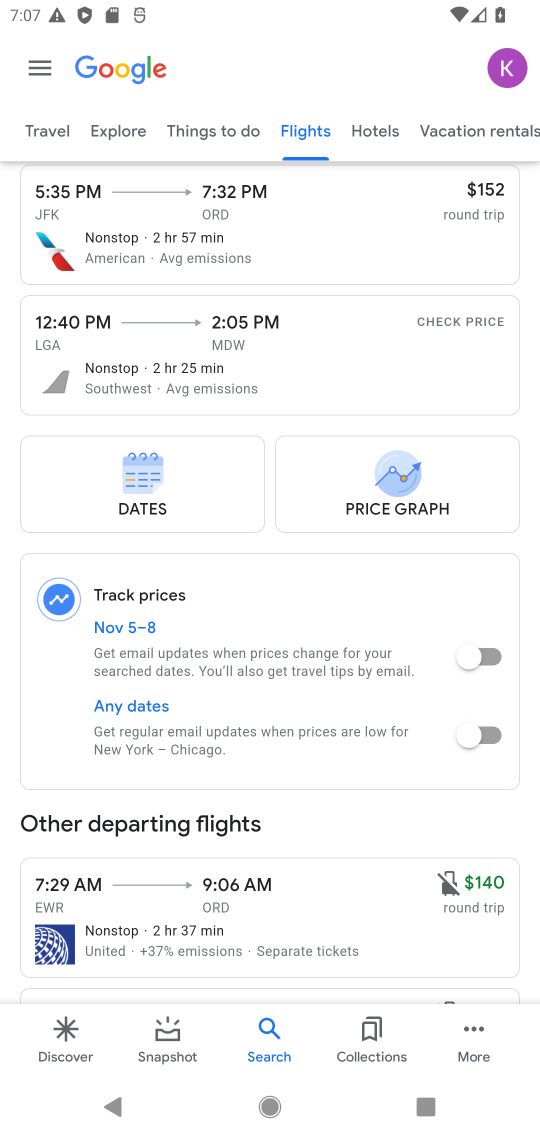
Step 49: click (282, 687)
Your task to perform on an android device: Search for flights from NYC to Chicago Image 50: 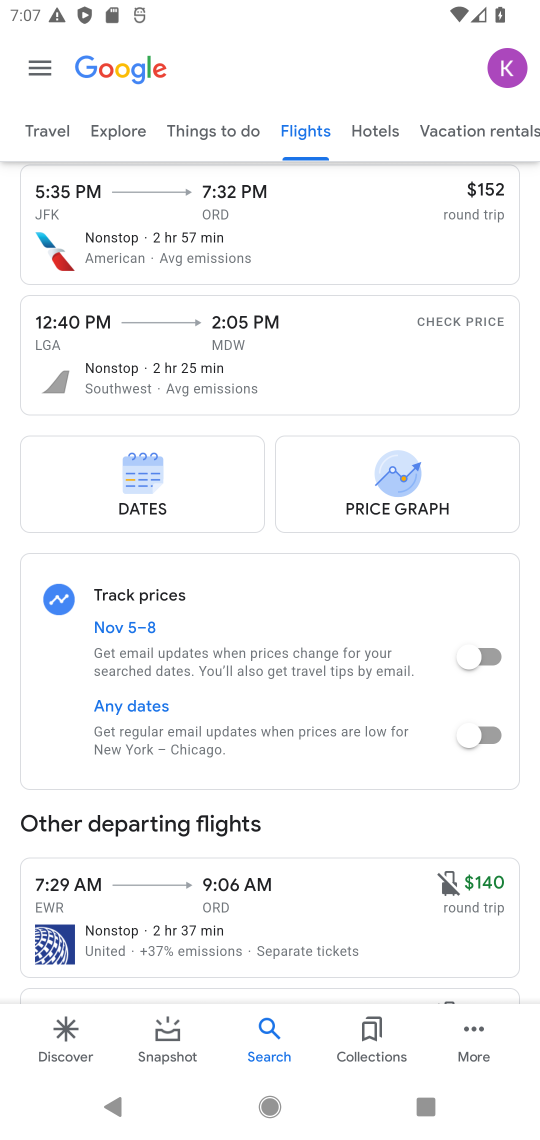
Step 50: drag from (240, 327) to (275, 759)
Your task to perform on an android device: Search for flights from NYC to Chicago Image 51: 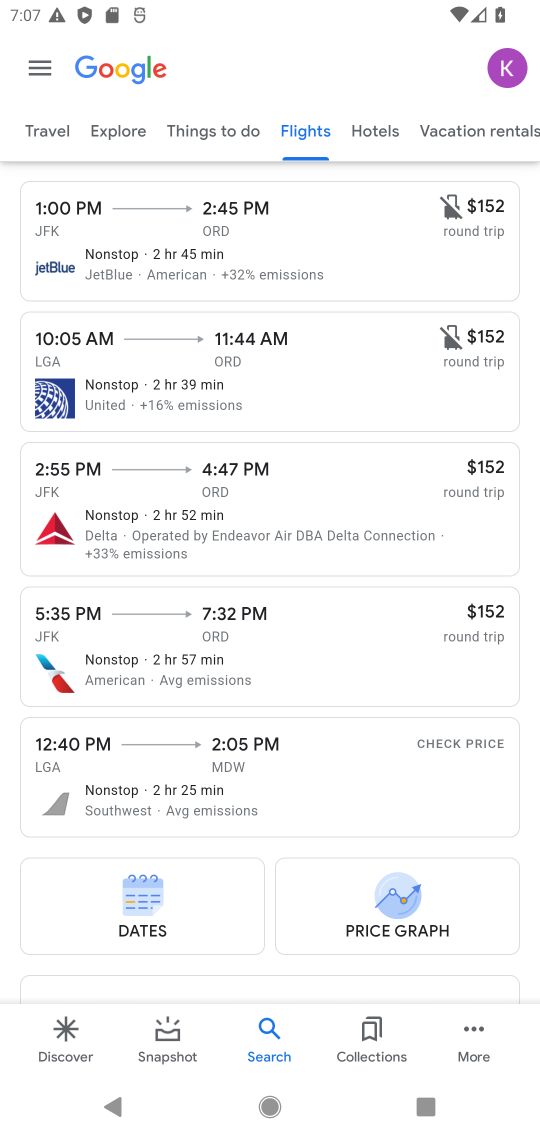
Step 51: drag from (265, 256) to (317, 798)
Your task to perform on an android device: Search for flights from NYC to Chicago Image 52: 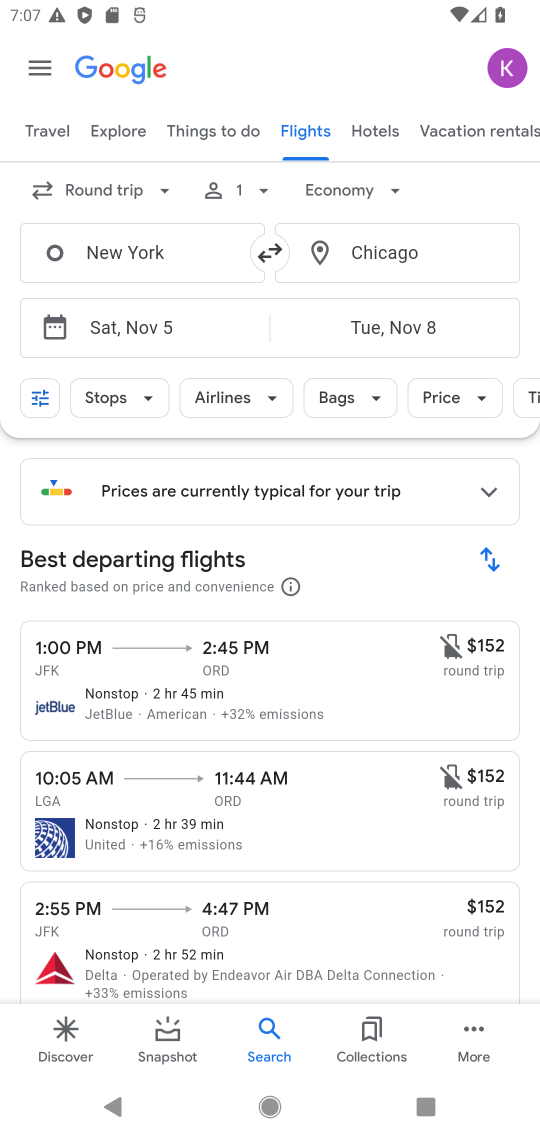
Step 52: drag from (245, 264) to (289, 814)
Your task to perform on an android device: Search for flights from NYC to Chicago Image 53: 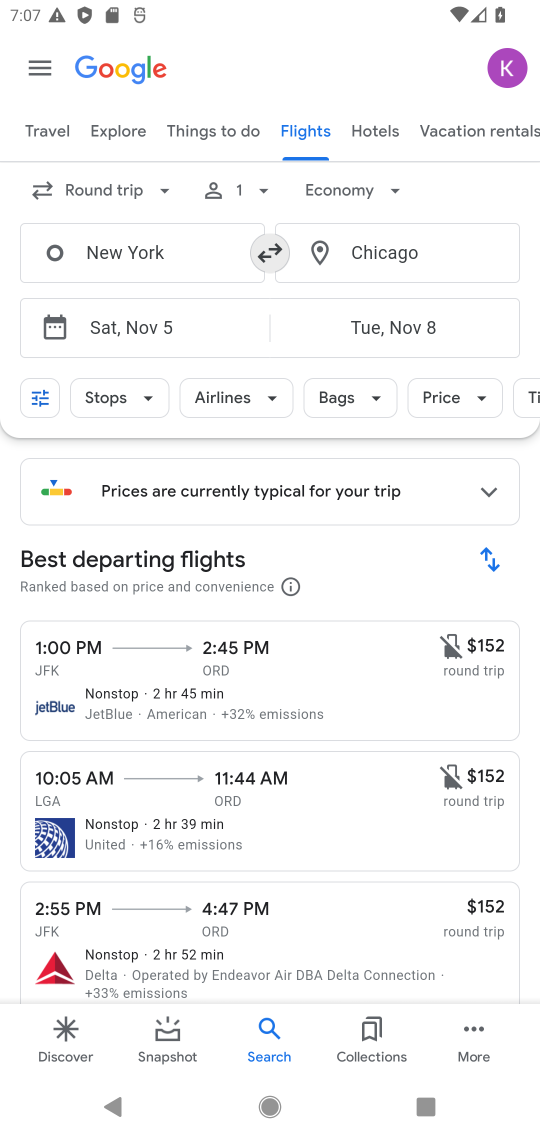
Step 53: drag from (255, 317) to (305, 776)
Your task to perform on an android device: Search for flights from NYC to Chicago Image 54: 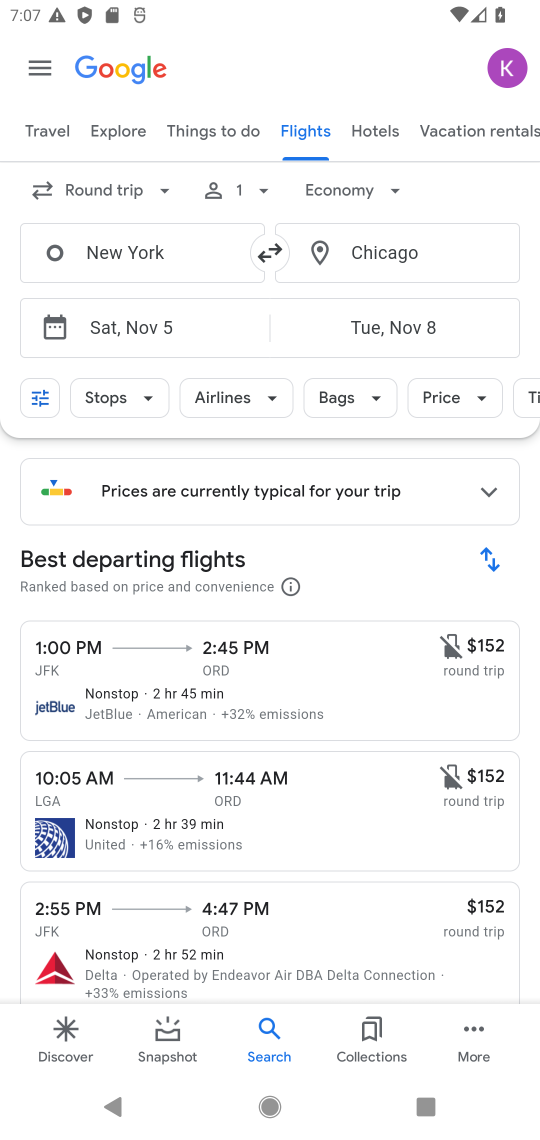
Step 54: drag from (278, 351) to (298, 718)
Your task to perform on an android device: Search for flights from NYC to Chicago Image 55: 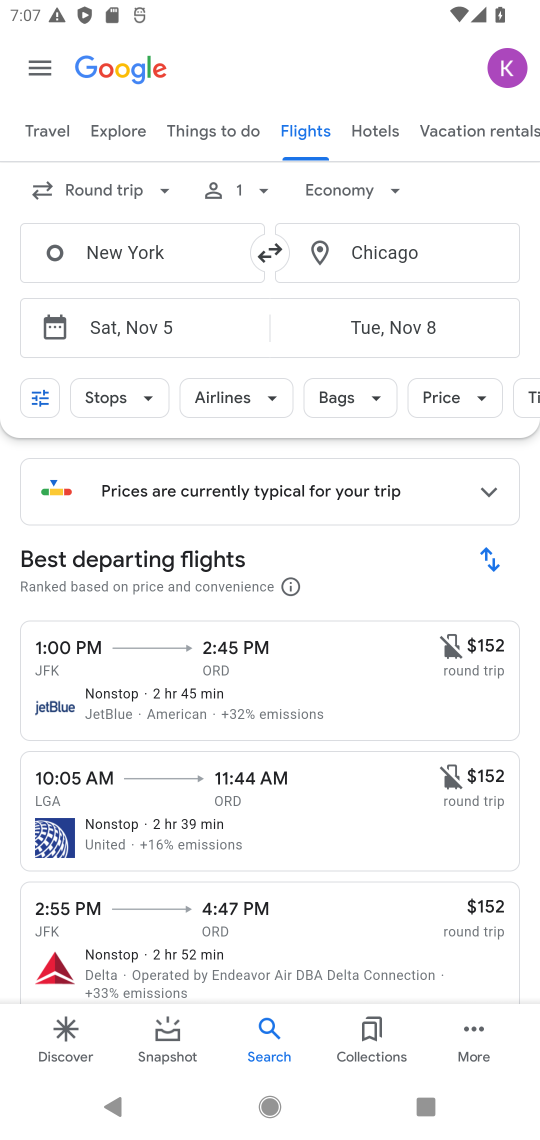
Step 55: click (305, 667)
Your task to perform on an android device: Search for flights from NYC to Chicago Image 56: 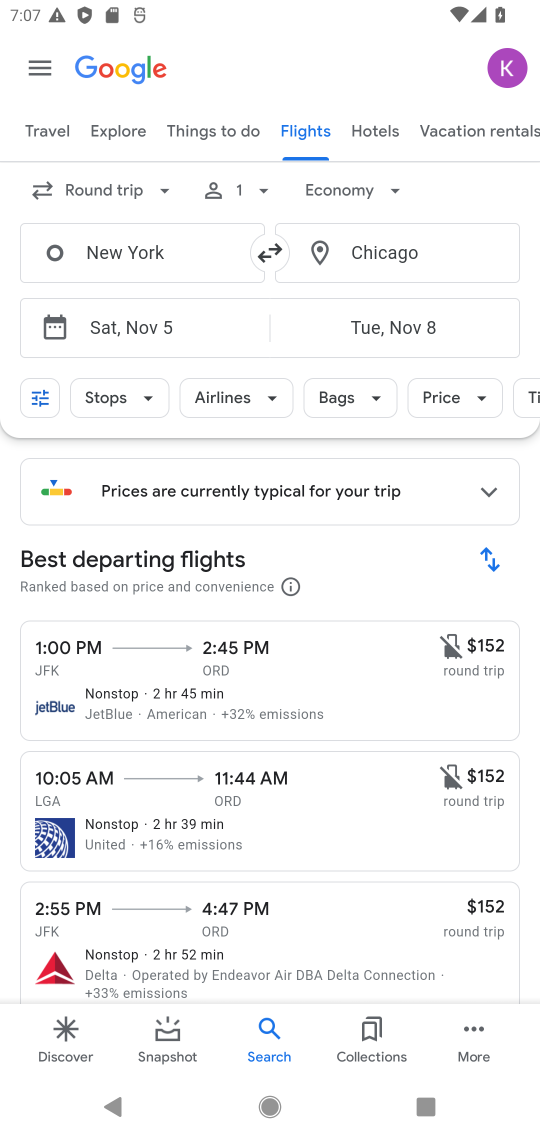
Step 56: task complete